Your task to perform on an android device: How much does a 2 bedroom apartment rent for in New York? Image 0: 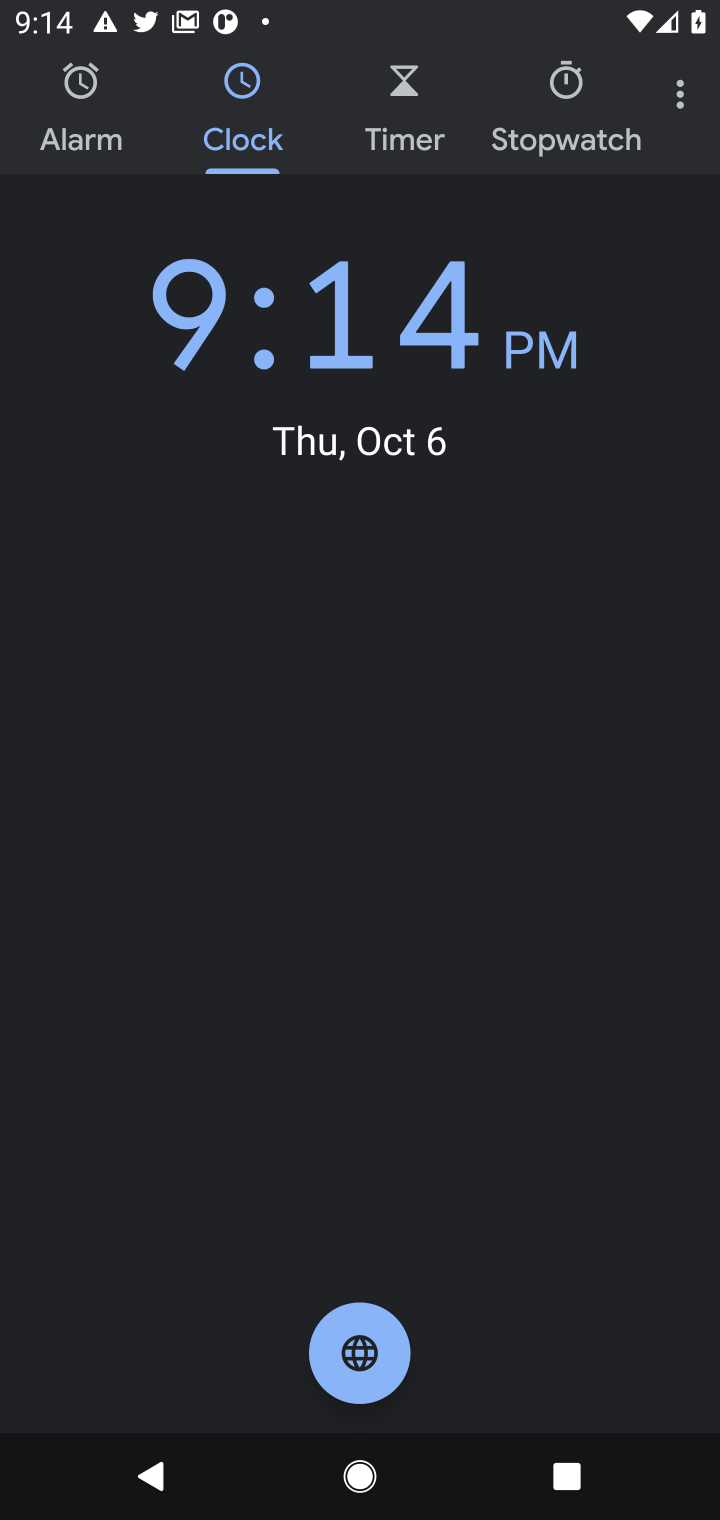
Step 0: press home button
Your task to perform on an android device: How much does a 2 bedroom apartment rent for in New York? Image 1: 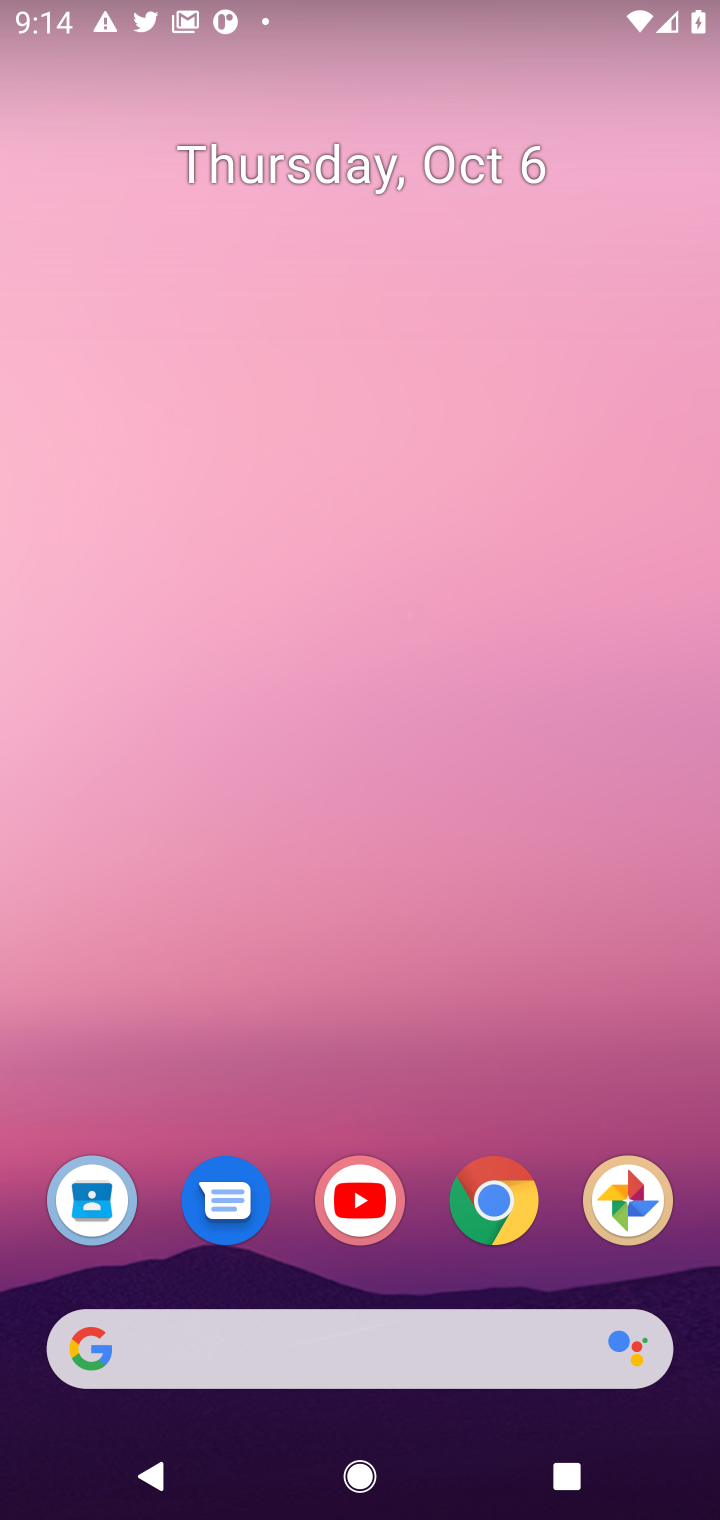
Step 1: click (517, 1203)
Your task to perform on an android device: How much does a 2 bedroom apartment rent for in New York? Image 2: 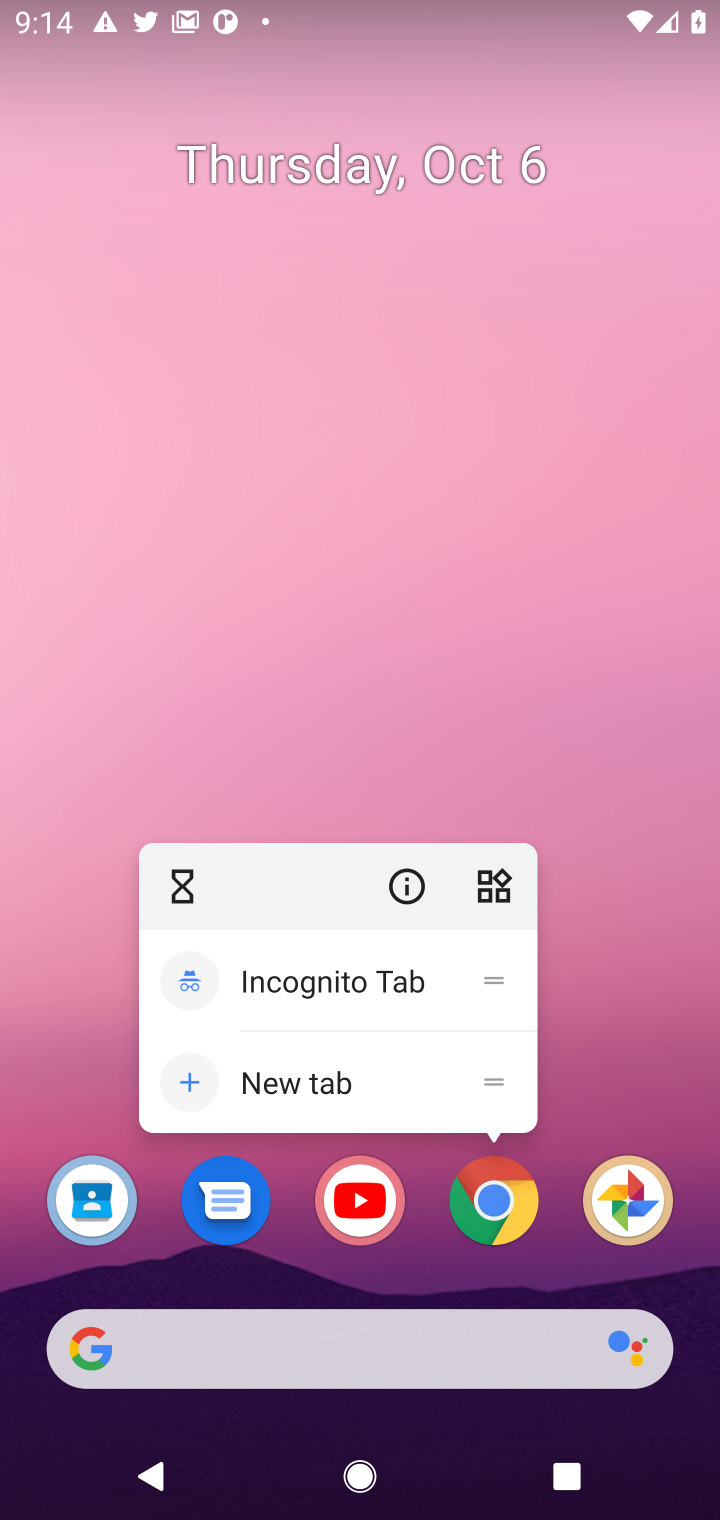
Step 2: press home button
Your task to perform on an android device: How much does a 2 bedroom apartment rent for in New York? Image 3: 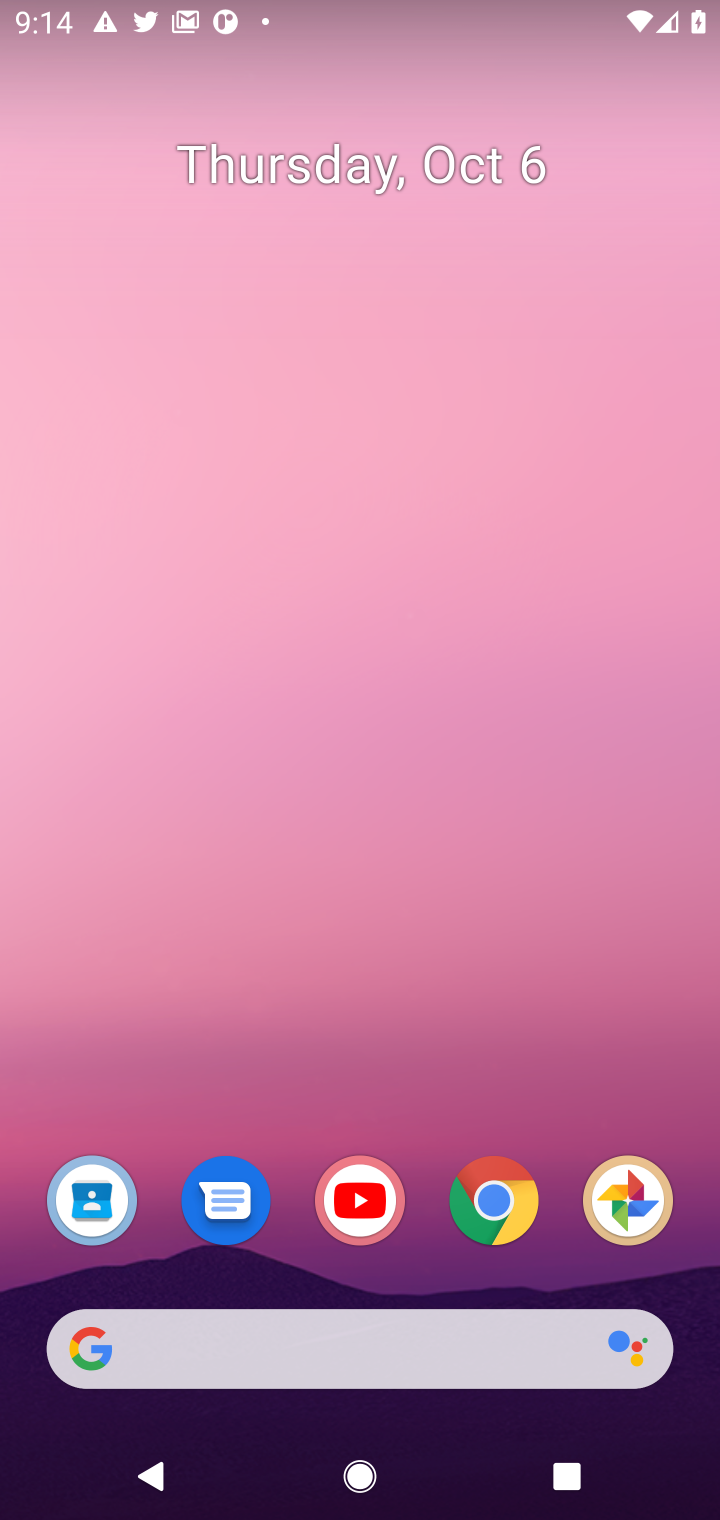
Step 3: press back button
Your task to perform on an android device: How much does a 2 bedroom apartment rent for in New York? Image 4: 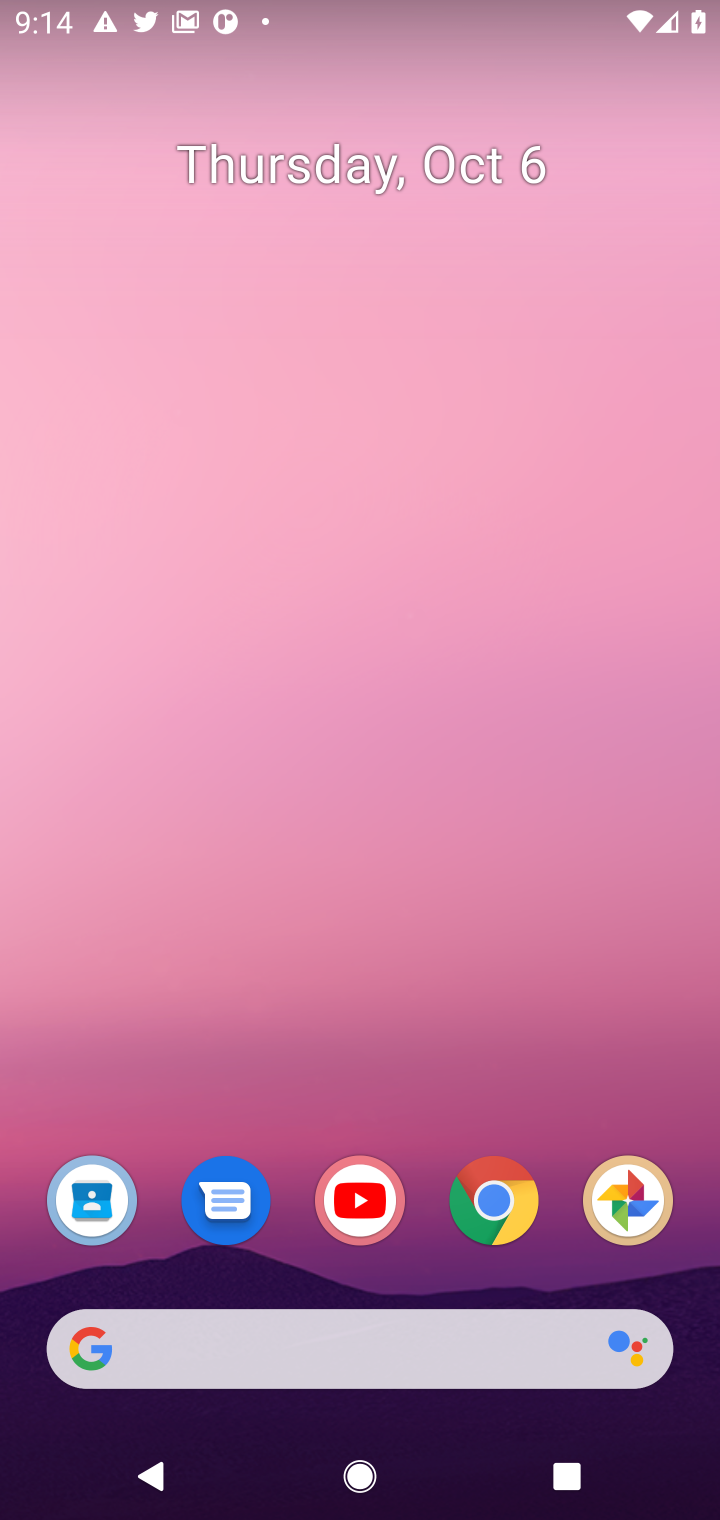
Step 4: press home button
Your task to perform on an android device: How much does a 2 bedroom apartment rent for in New York? Image 5: 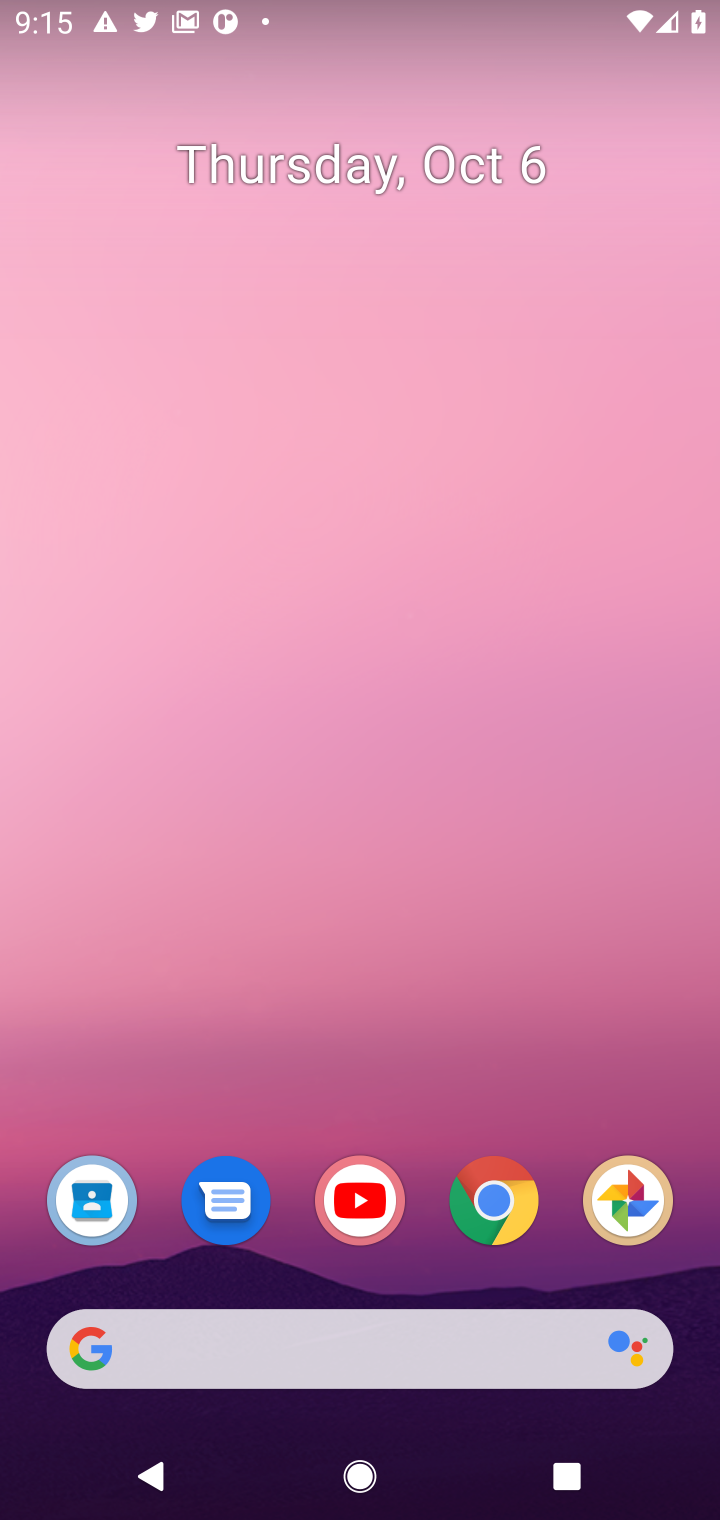
Step 5: click (491, 1200)
Your task to perform on an android device: How much does a 2 bedroom apartment rent for in New York? Image 6: 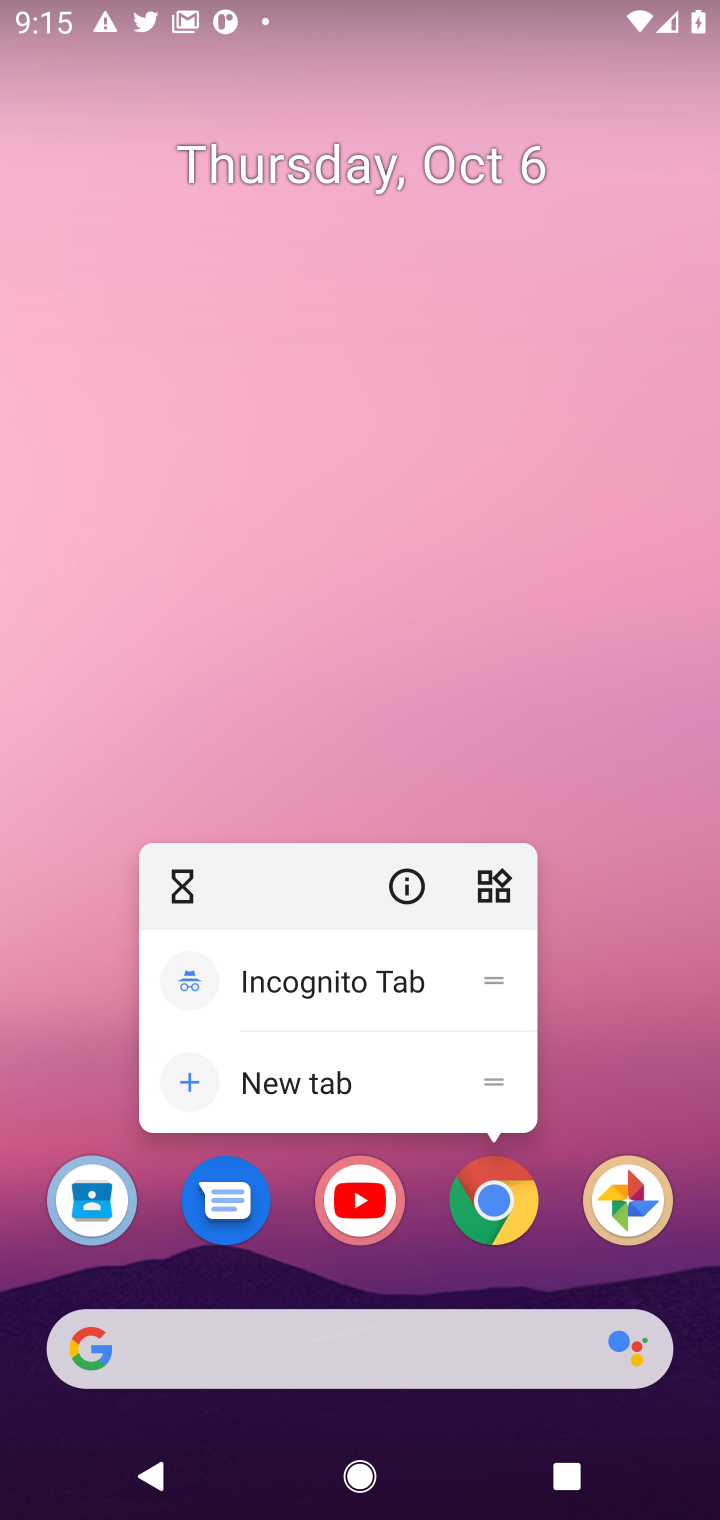
Step 6: press back button
Your task to perform on an android device: How much does a 2 bedroom apartment rent for in New York? Image 7: 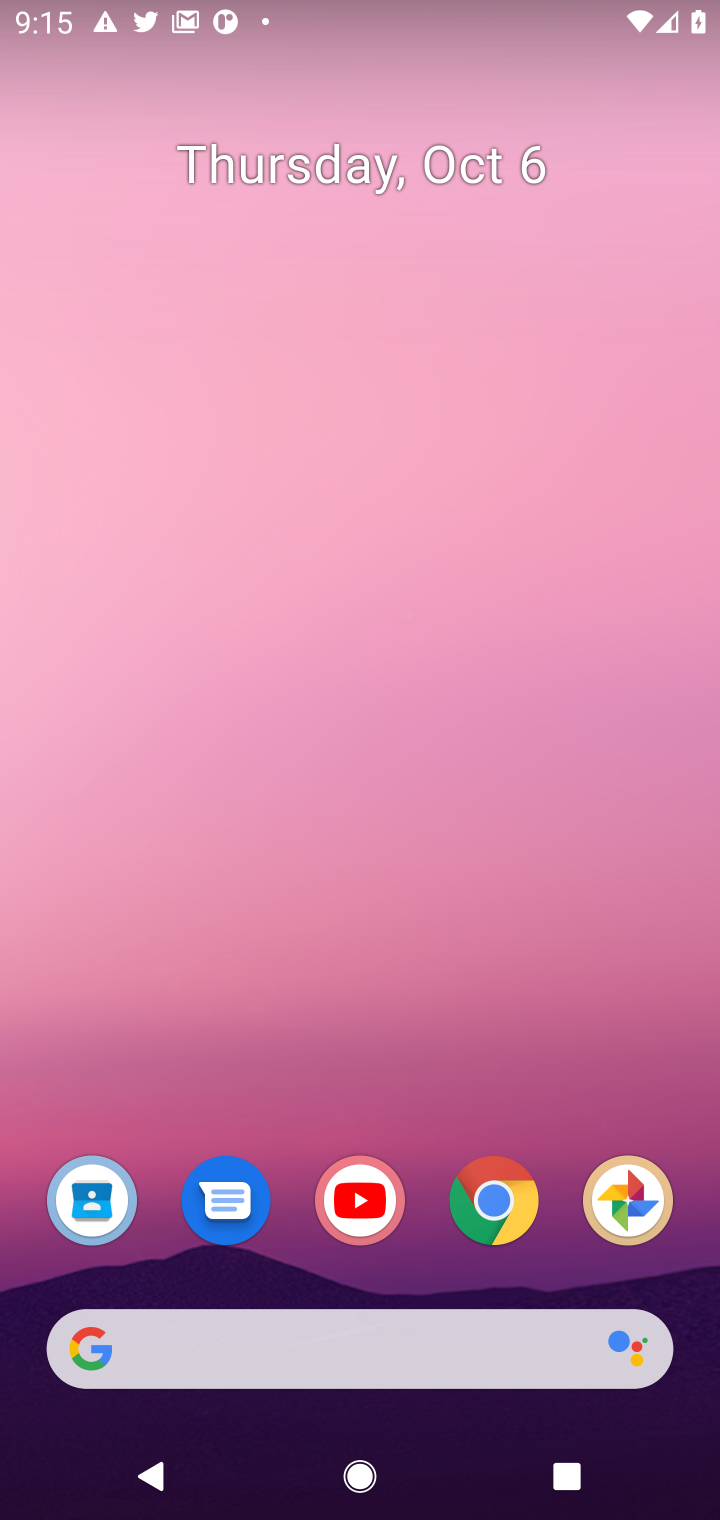
Step 7: press home button
Your task to perform on an android device: How much does a 2 bedroom apartment rent for in New York? Image 8: 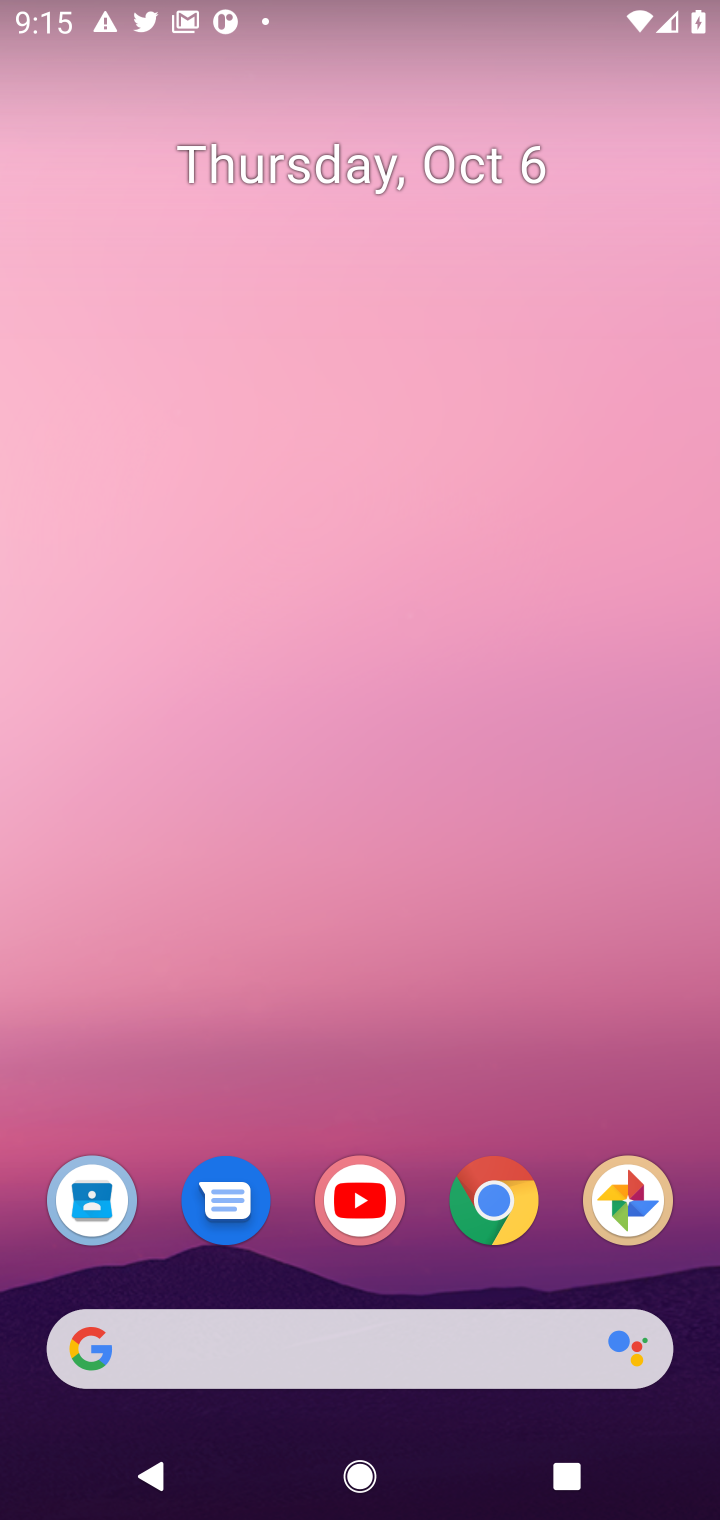
Step 8: click (504, 1201)
Your task to perform on an android device: How much does a 2 bedroom apartment rent for in New York? Image 9: 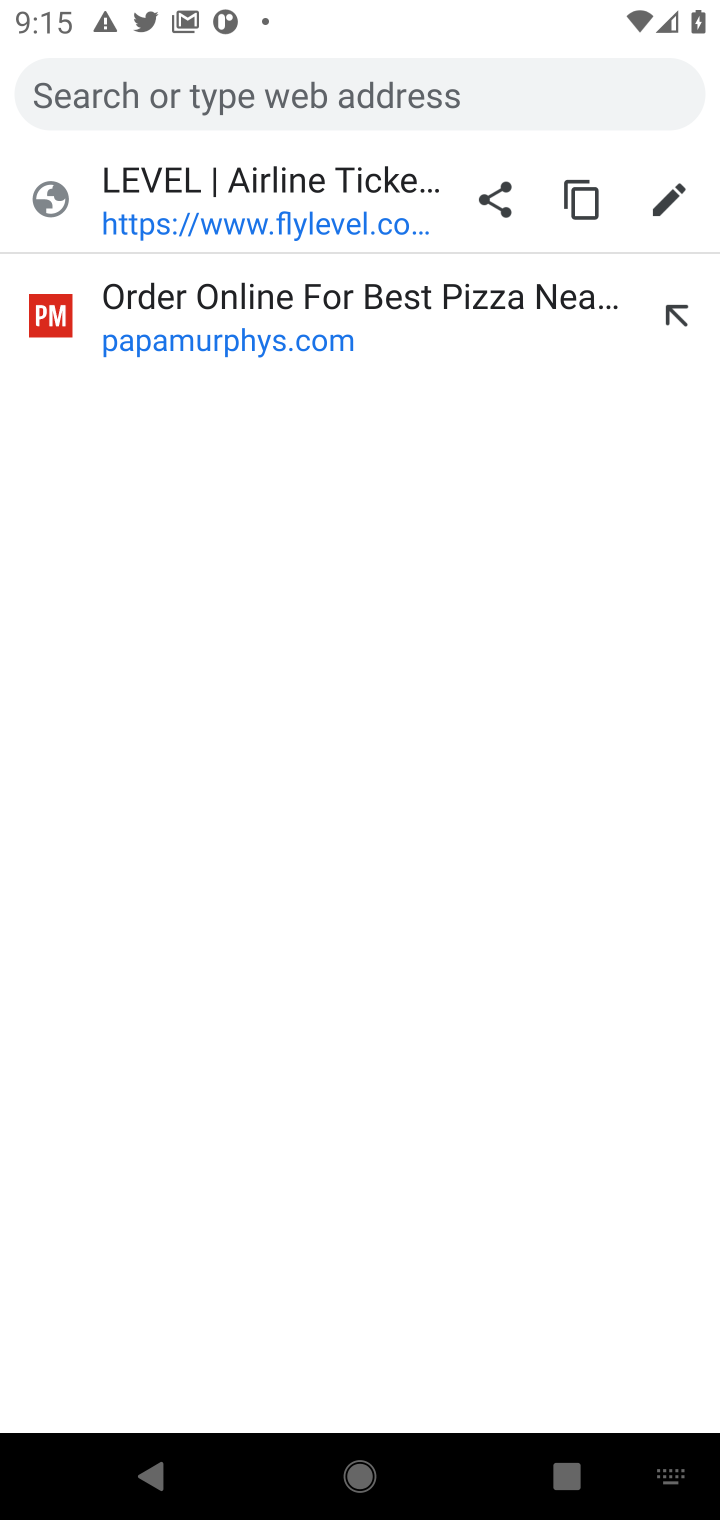
Step 9: type "2 bedroom apartment rent for in new york"
Your task to perform on an android device: How much does a 2 bedroom apartment rent for in New York? Image 10: 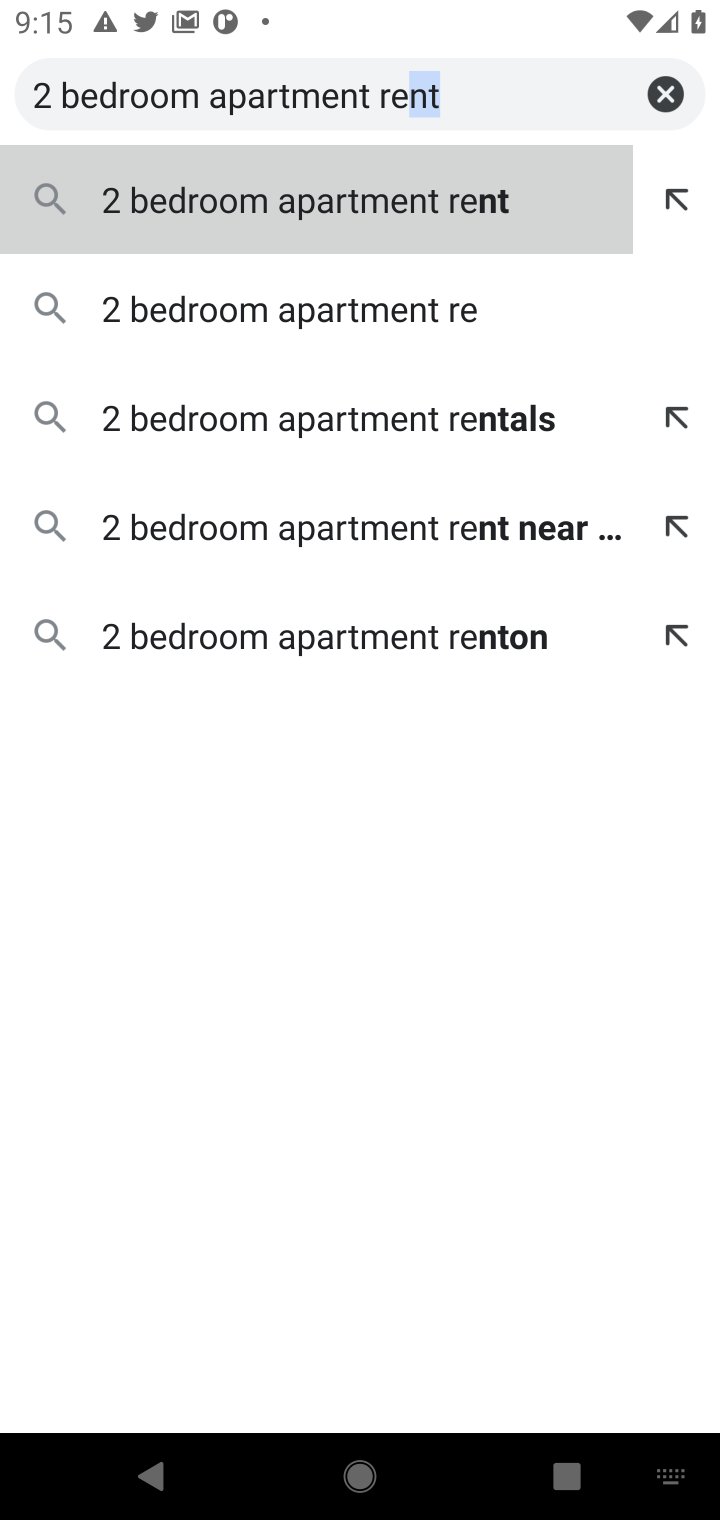
Step 10: click (424, 203)
Your task to perform on an android device: How much does a 2 bedroom apartment rent for in New York? Image 11: 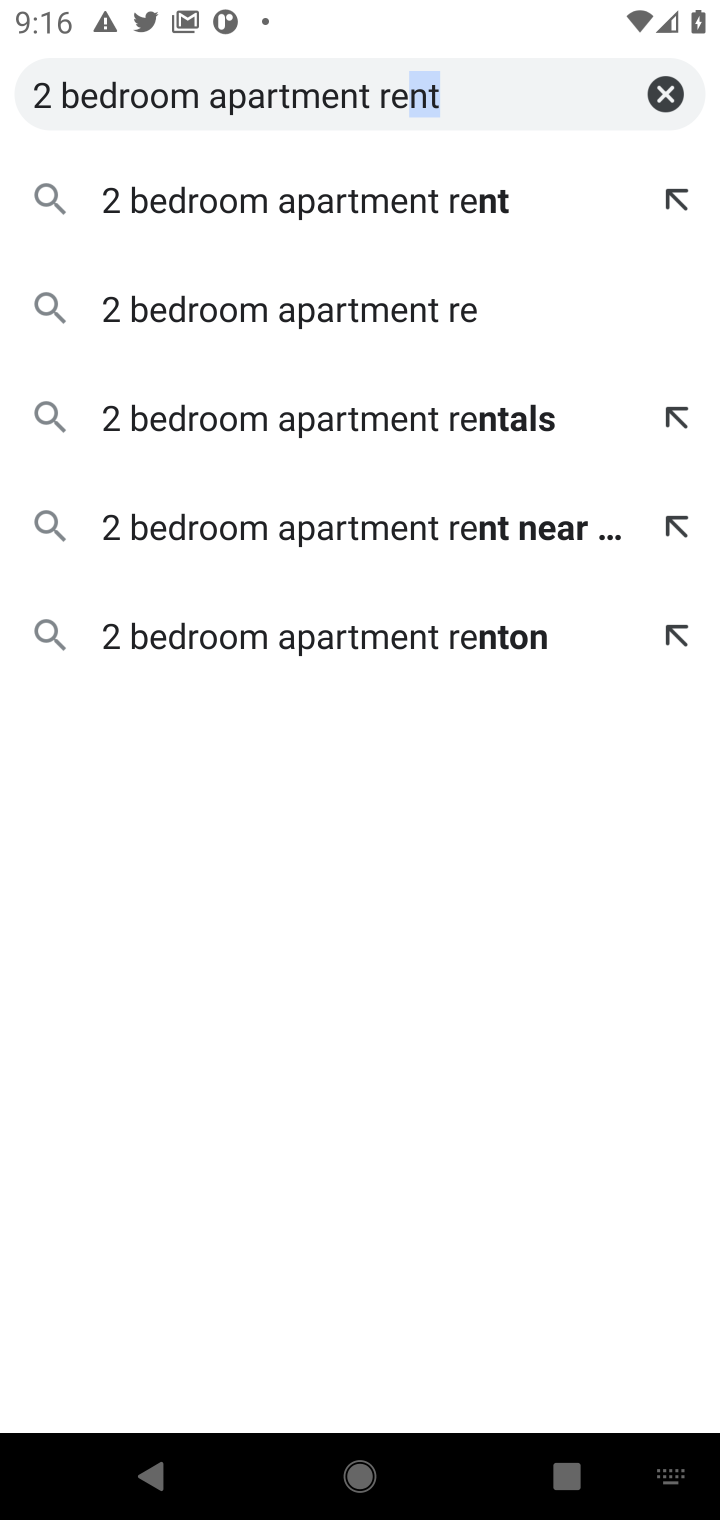
Step 11: click (488, 81)
Your task to perform on an android device: How much does a 2 bedroom apartment rent for in New York? Image 12: 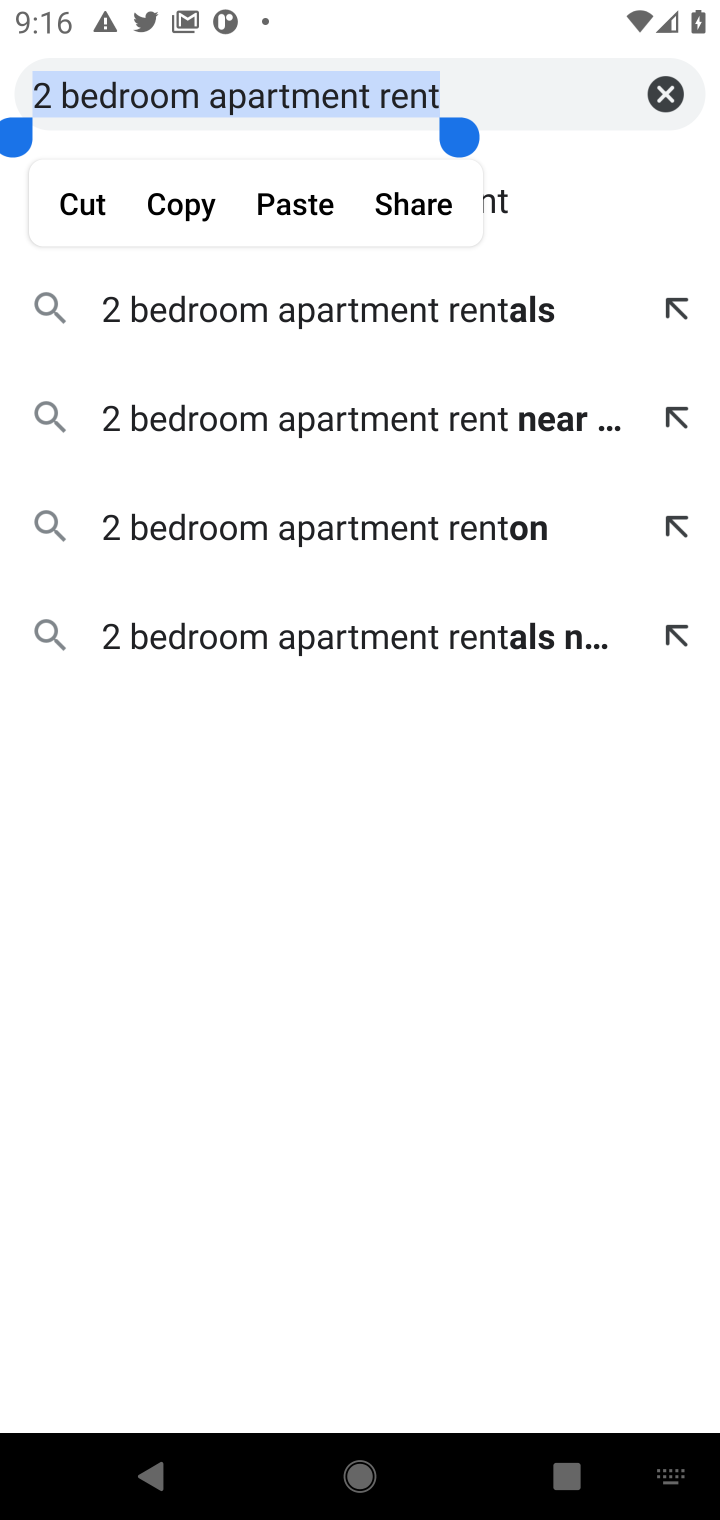
Step 12: type "how "
Your task to perform on an android device: How much does a 2 bedroom apartment rent for in New York? Image 13: 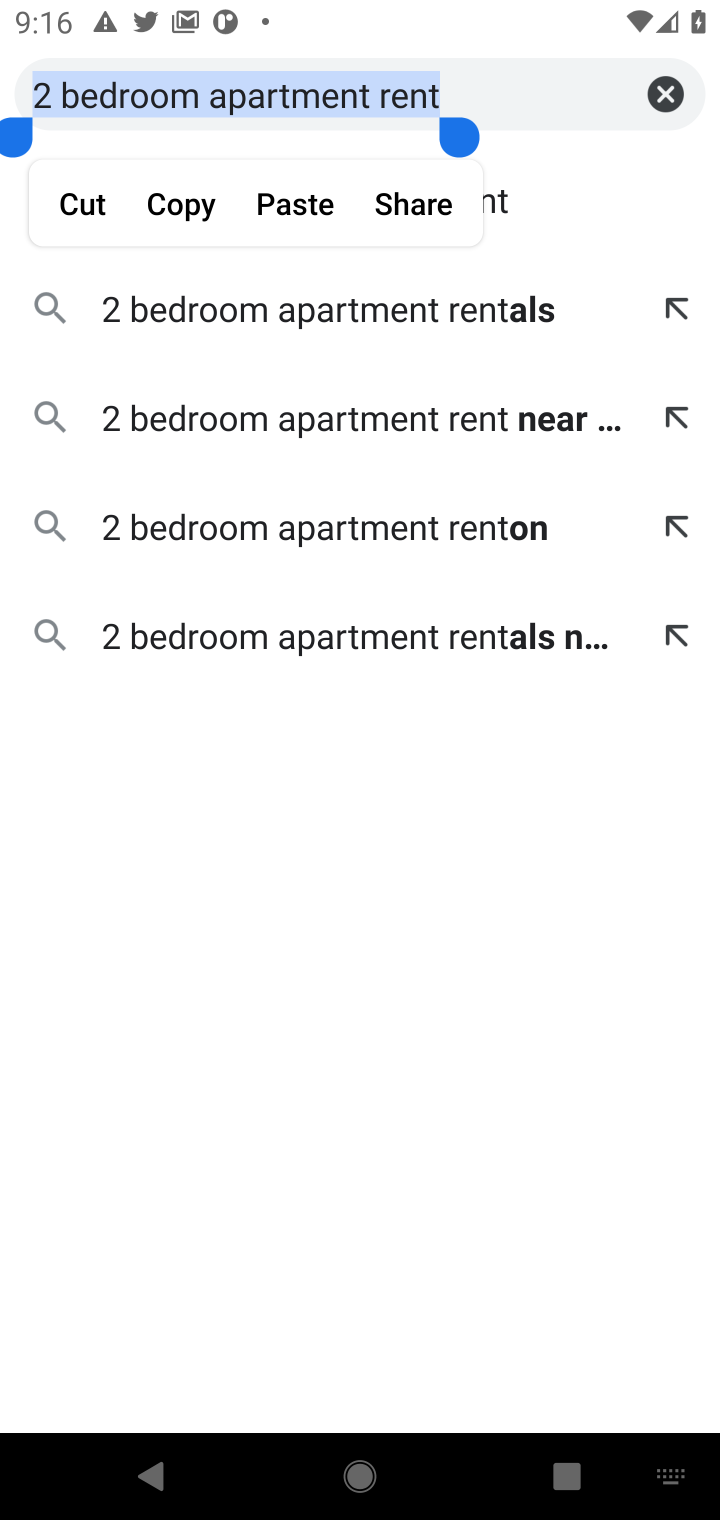
Step 13: click (667, 92)
Your task to perform on an android device: How much does a 2 bedroom apartment rent for in New York? Image 14: 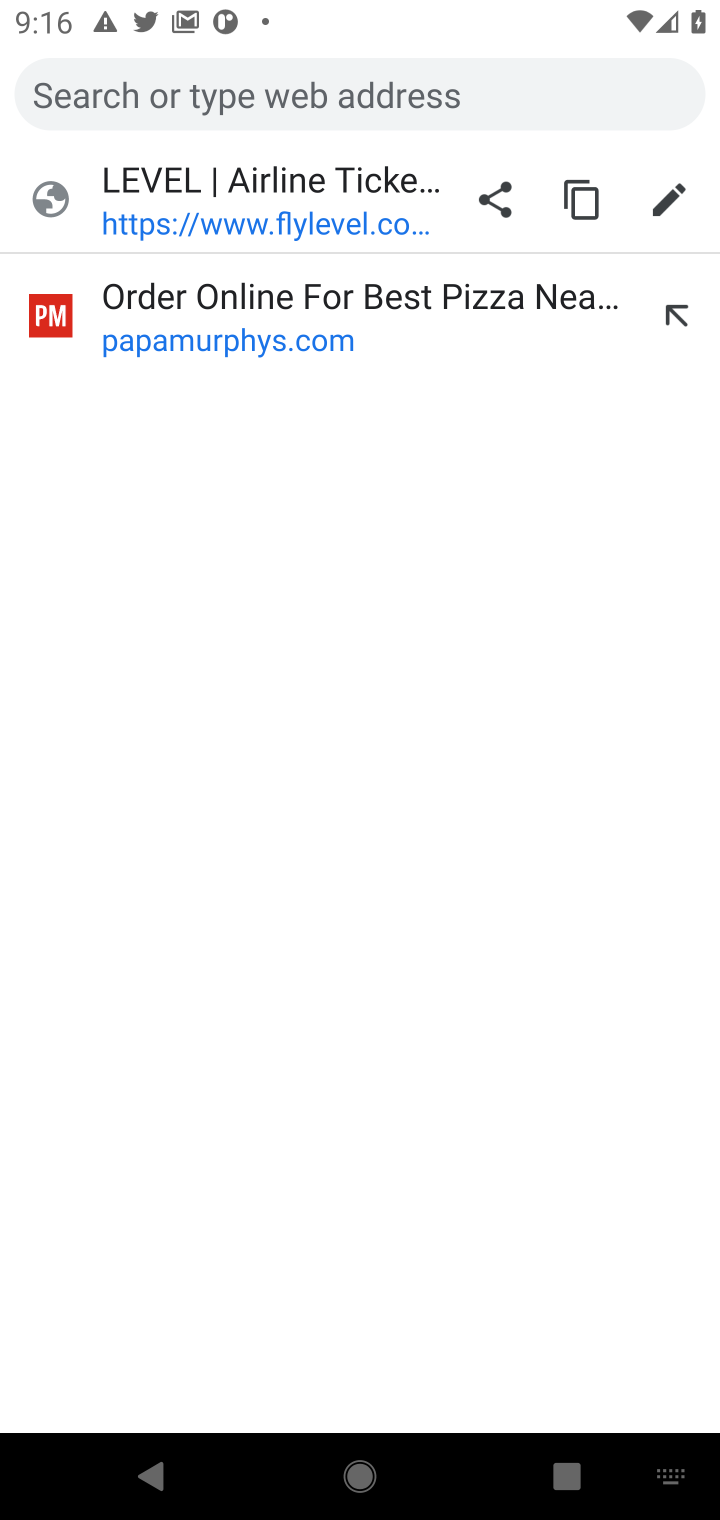
Step 14: type "how much does a 2 bedroom apartment rent in new york"
Your task to perform on an android device: How much does a 2 bedroom apartment rent for in New York? Image 15: 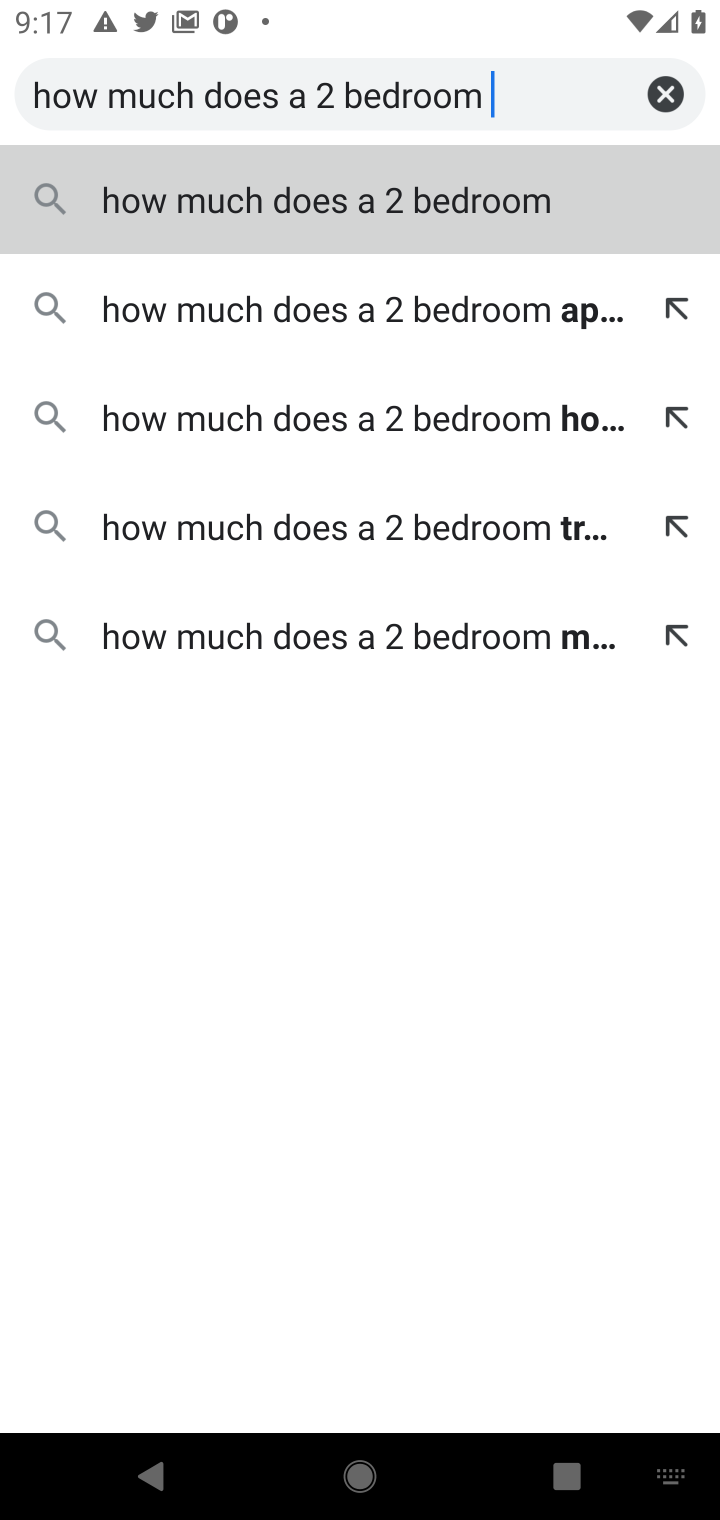
Step 15: click (248, 306)
Your task to perform on an android device: How much does a 2 bedroom apartment rent for in New York? Image 16: 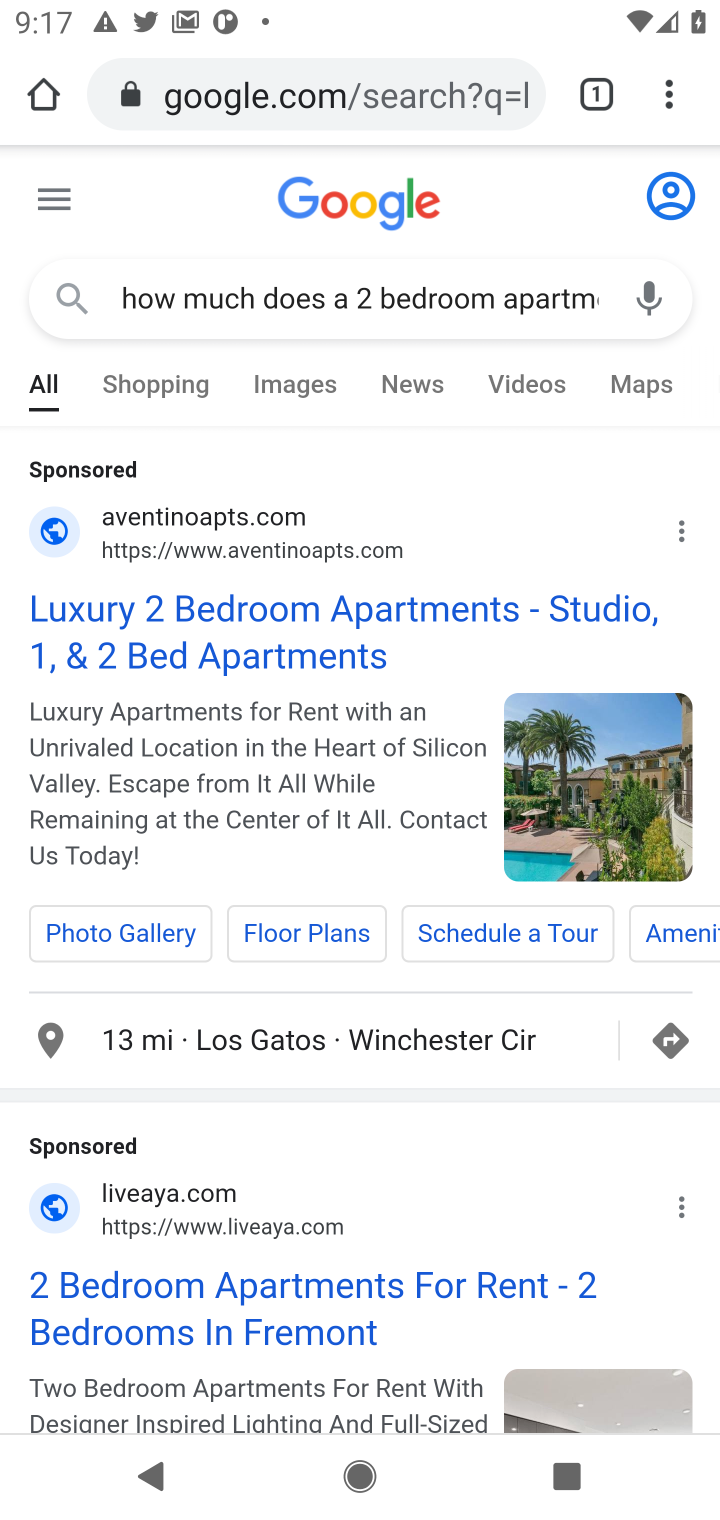
Step 16: drag from (596, 1066) to (639, 505)
Your task to perform on an android device: How much does a 2 bedroom apartment rent for in New York? Image 17: 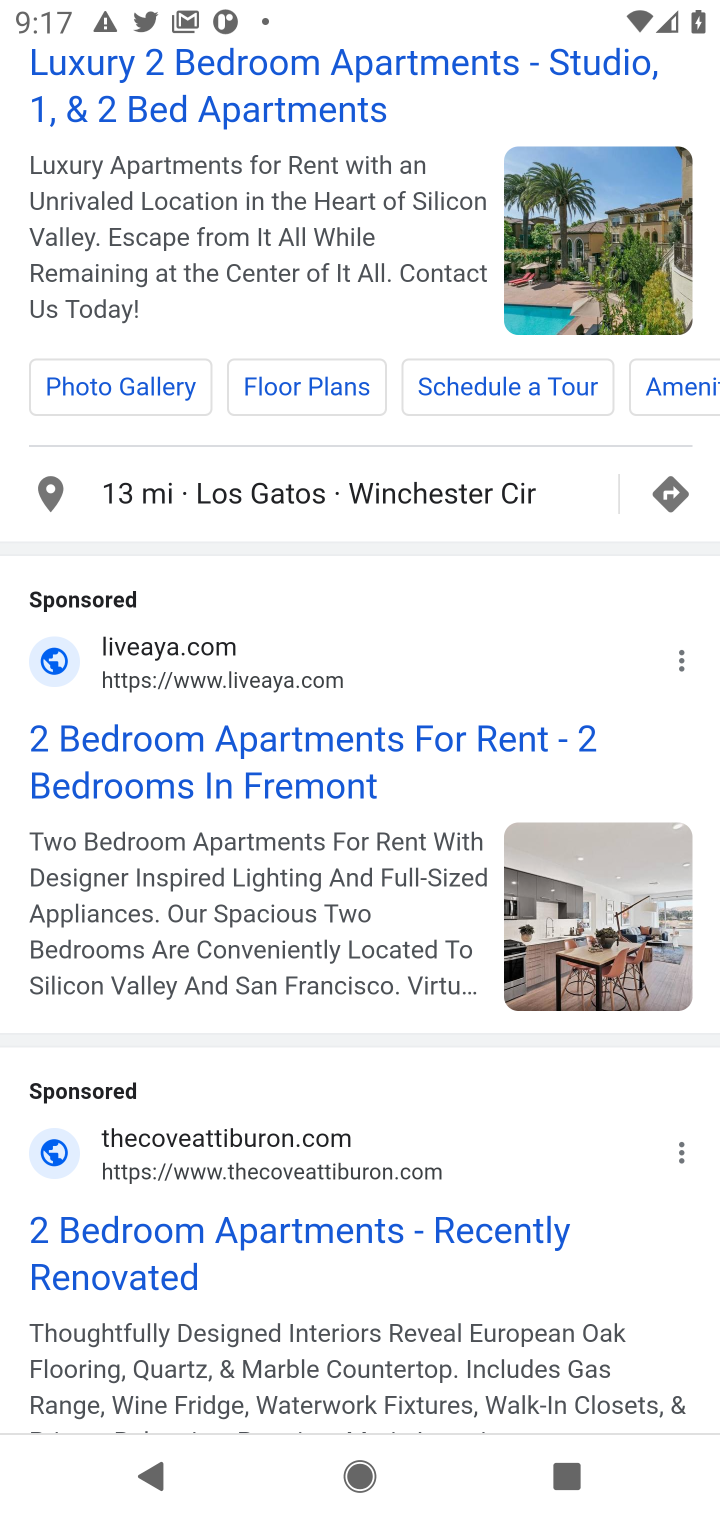
Step 17: click (300, 721)
Your task to perform on an android device: How much does a 2 bedroom apartment rent for in New York? Image 18: 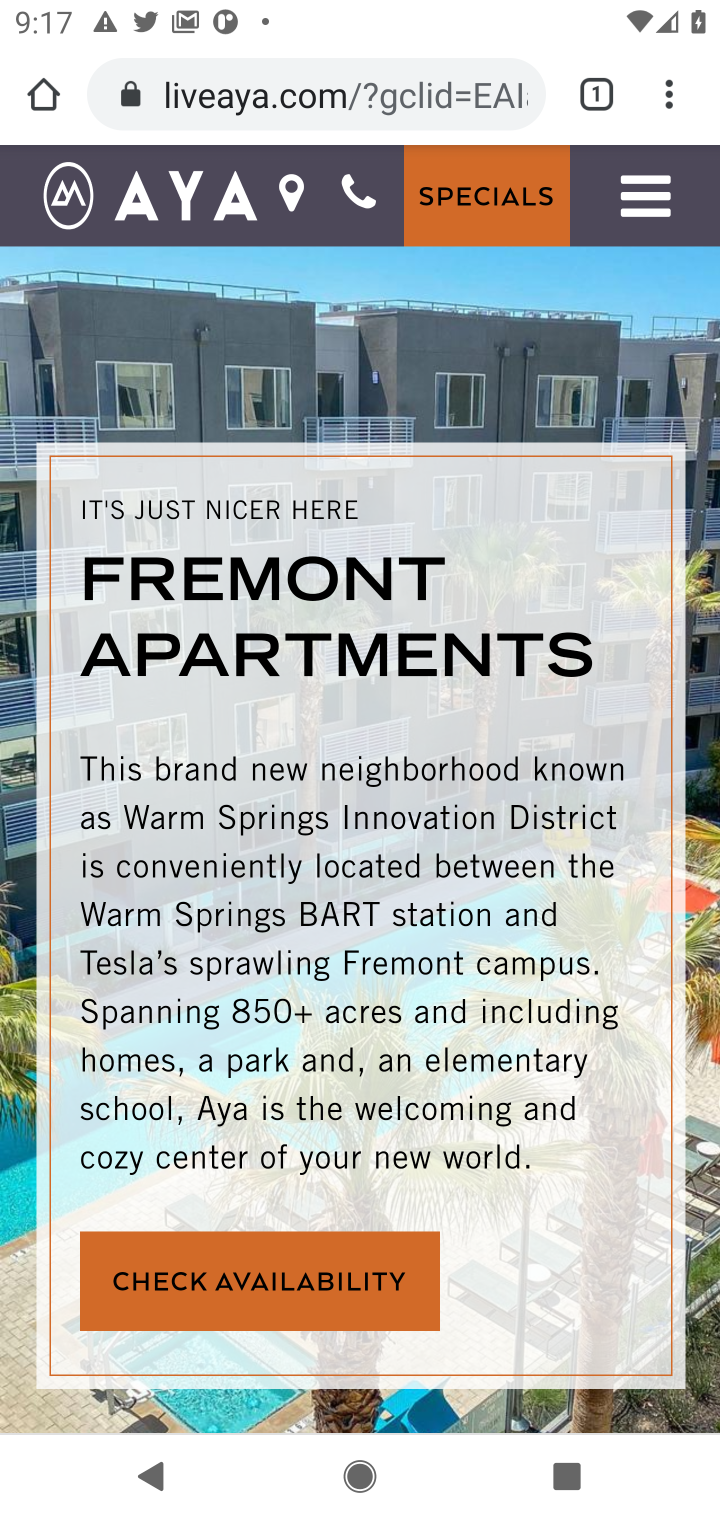
Step 18: click (374, 1283)
Your task to perform on an android device: How much does a 2 bedroom apartment rent for in New York? Image 19: 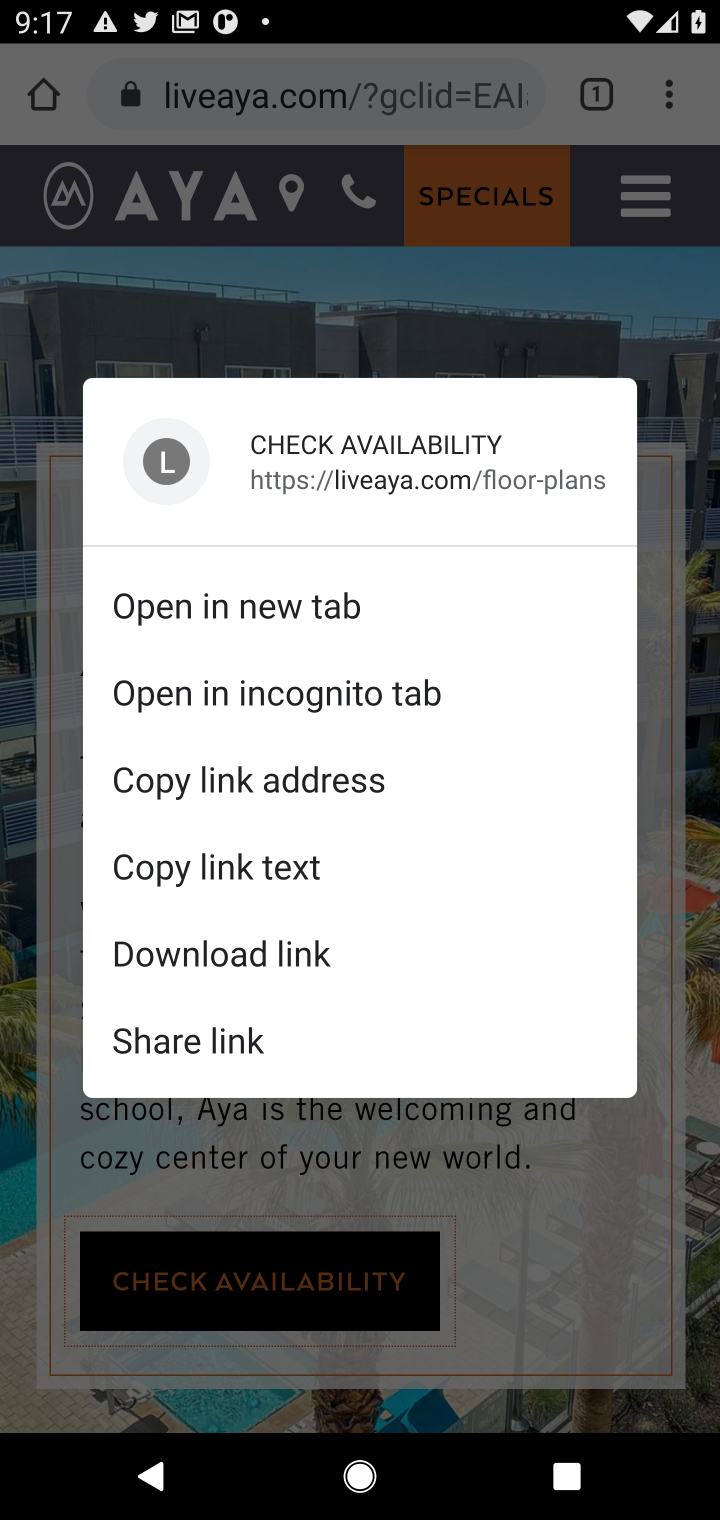
Step 19: click (183, 1294)
Your task to perform on an android device: How much does a 2 bedroom apartment rent for in New York? Image 20: 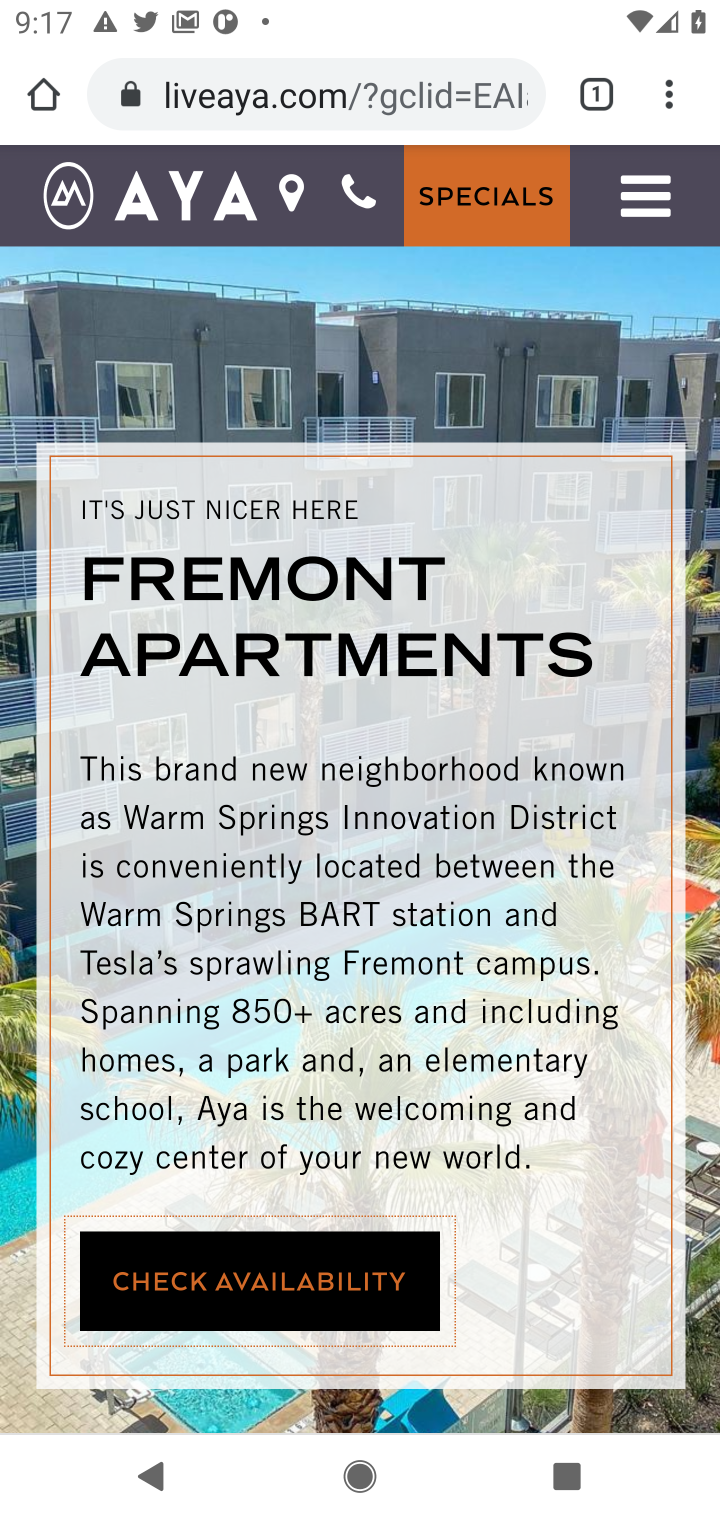
Step 20: click (449, 433)
Your task to perform on an android device: How much does a 2 bedroom apartment rent for in New York? Image 21: 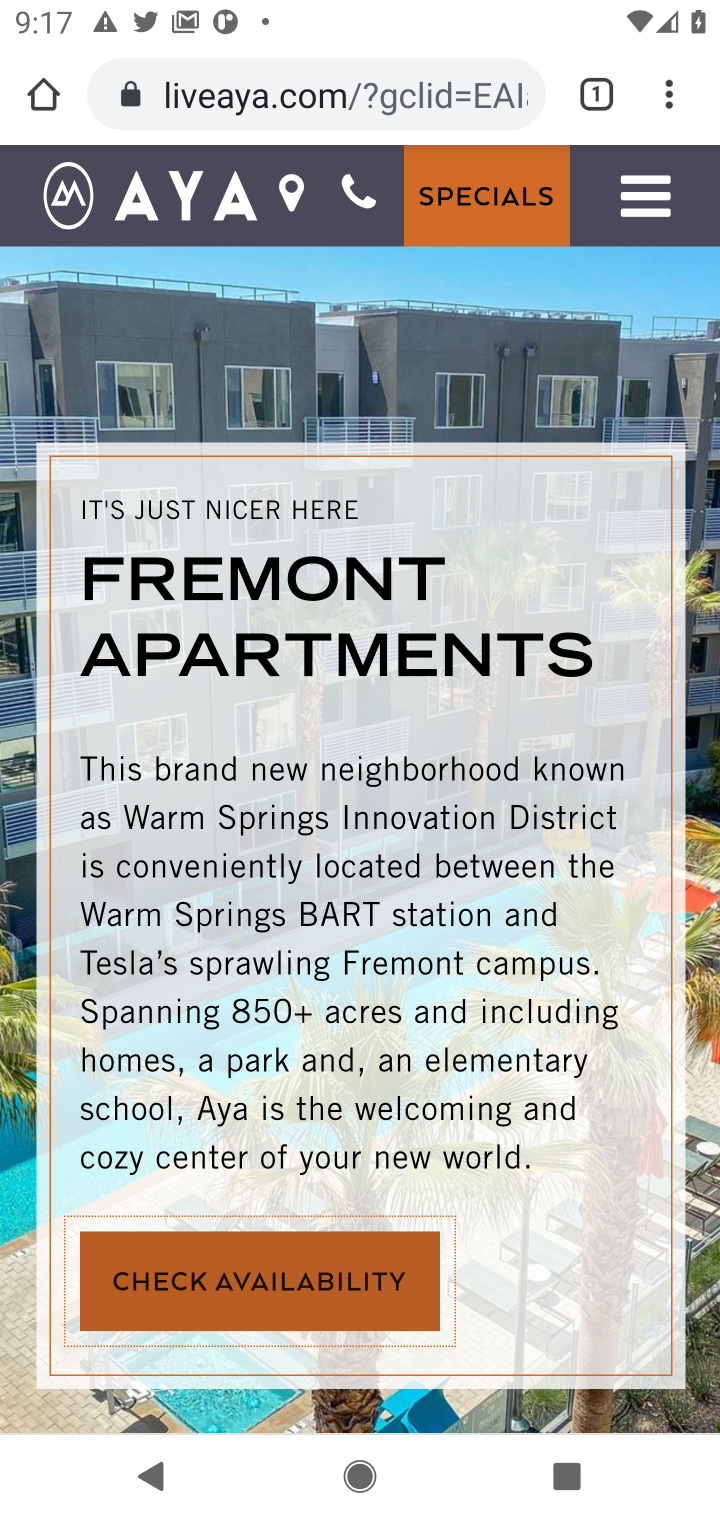
Step 21: drag from (256, 921) to (217, 1277)
Your task to perform on an android device: How much does a 2 bedroom apartment rent for in New York? Image 22: 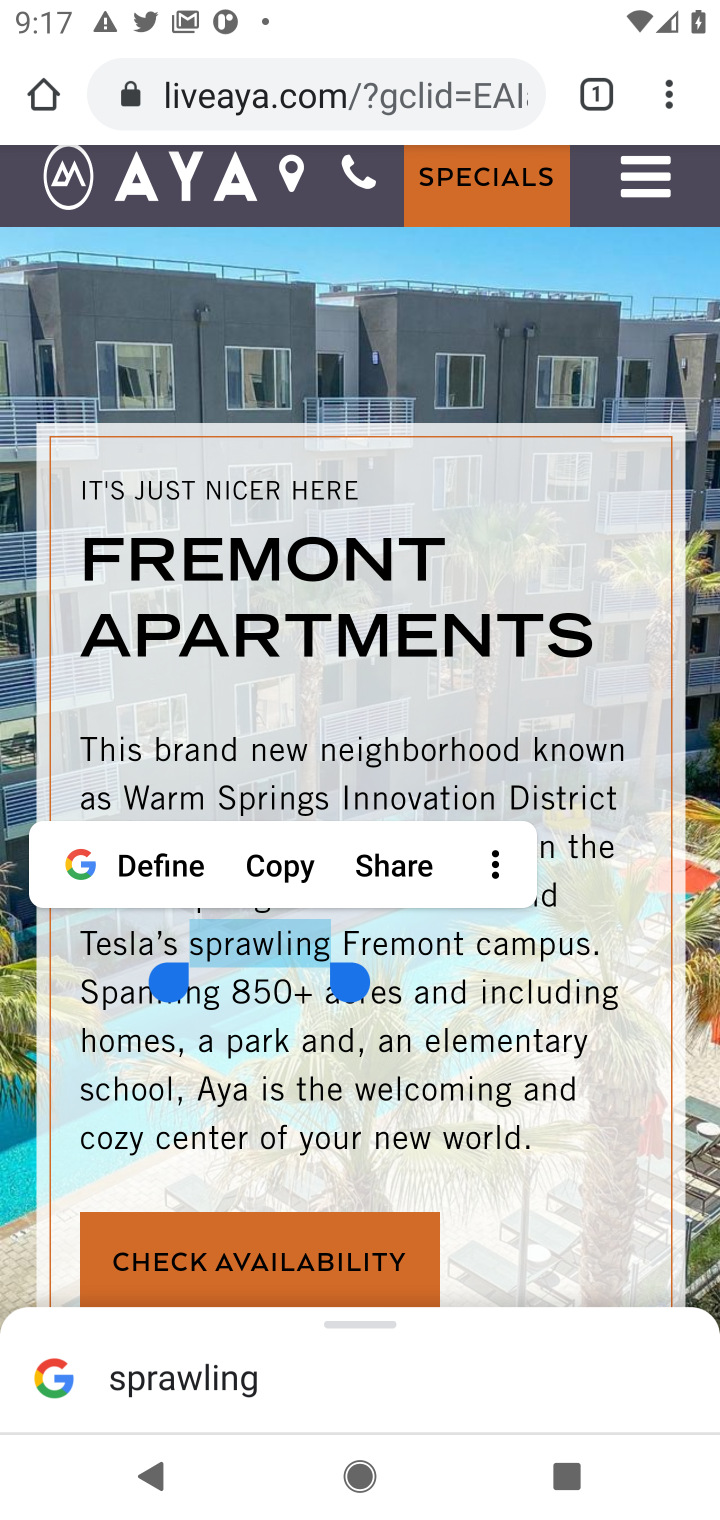
Step 22: click (357, 1267)
Your task to perform on an android device: How much does a 2 bedroom apartment rent for in New York? Image 23: 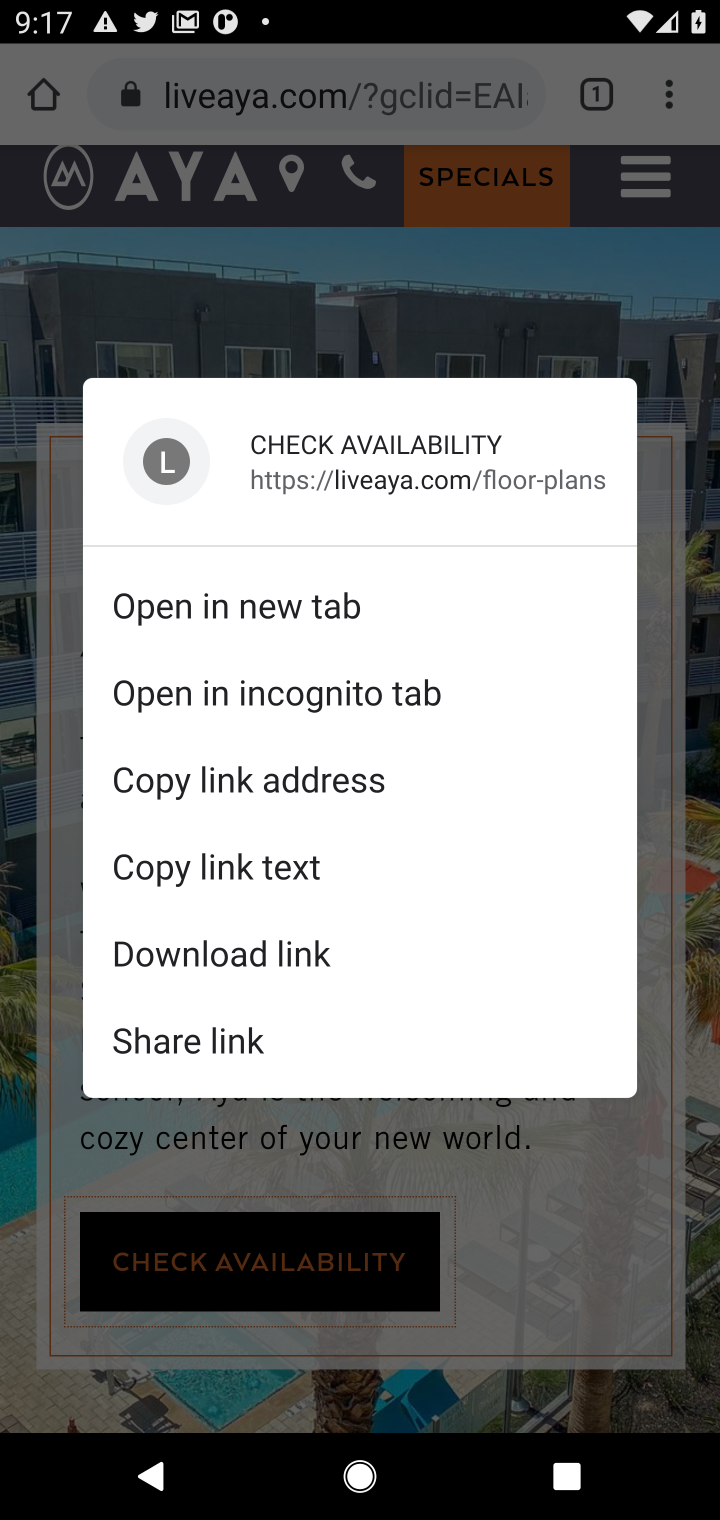
Step 23: click (278, 598)
Your task to perform on an android device: How much does a 2 bedroom apartment rent for in New York? Image 24: 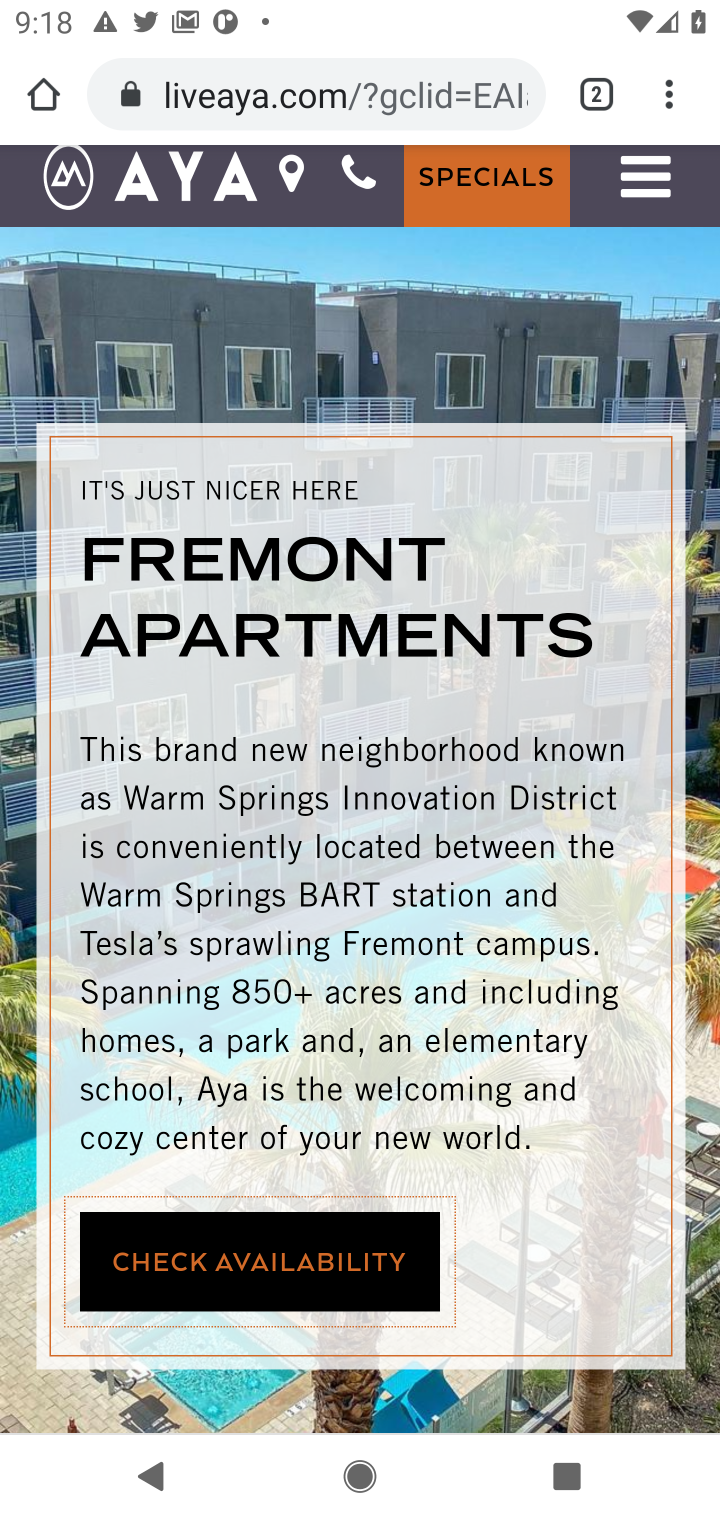
Step 24: drag from (568, 1143) to (614, 887)
Your task to perform on an android device: How much does a 2 bedroom apartment rent for in New York? Image 25: 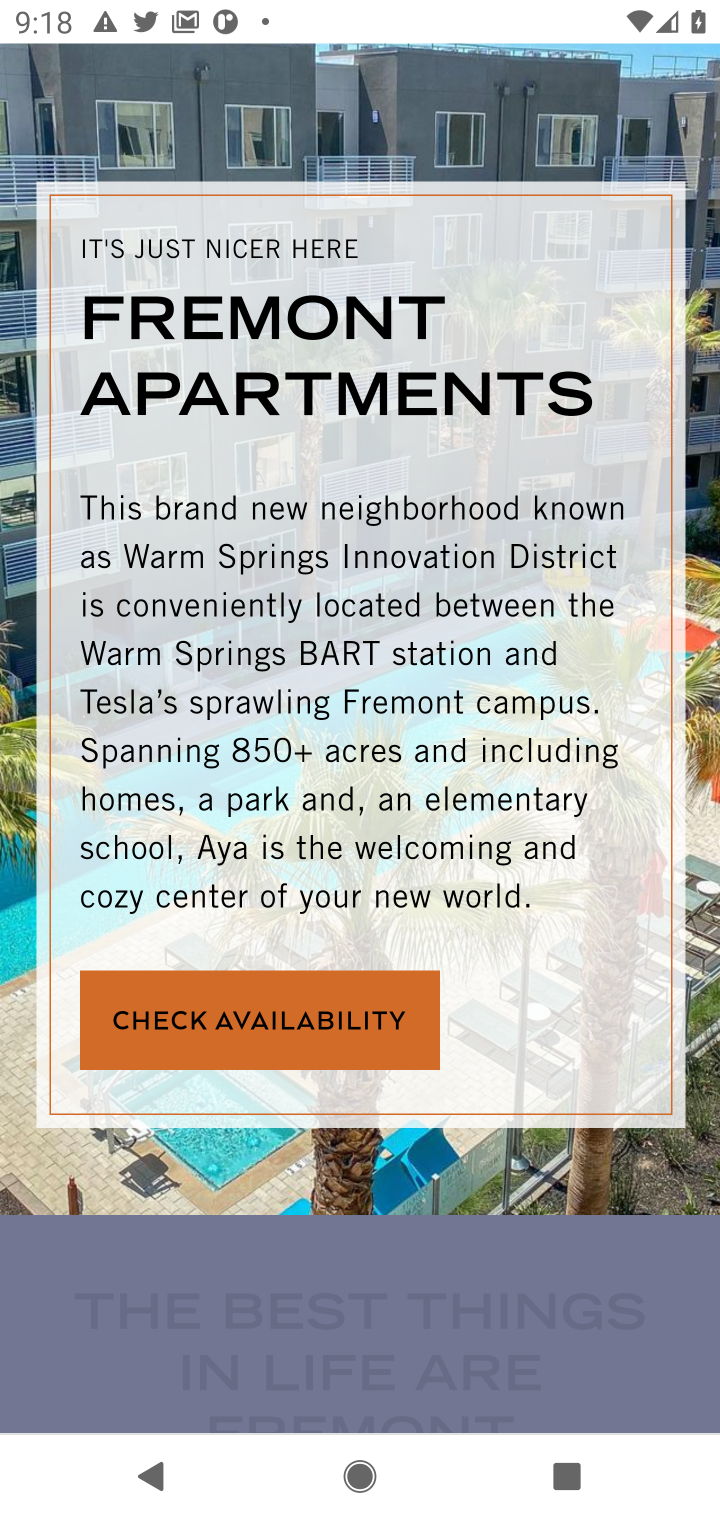
Step 25: drag from (708, 1182) to (708, 617)
Your task to perform on an android device: How much does a 2 bedroom apartment rent for in New York? Image 26: 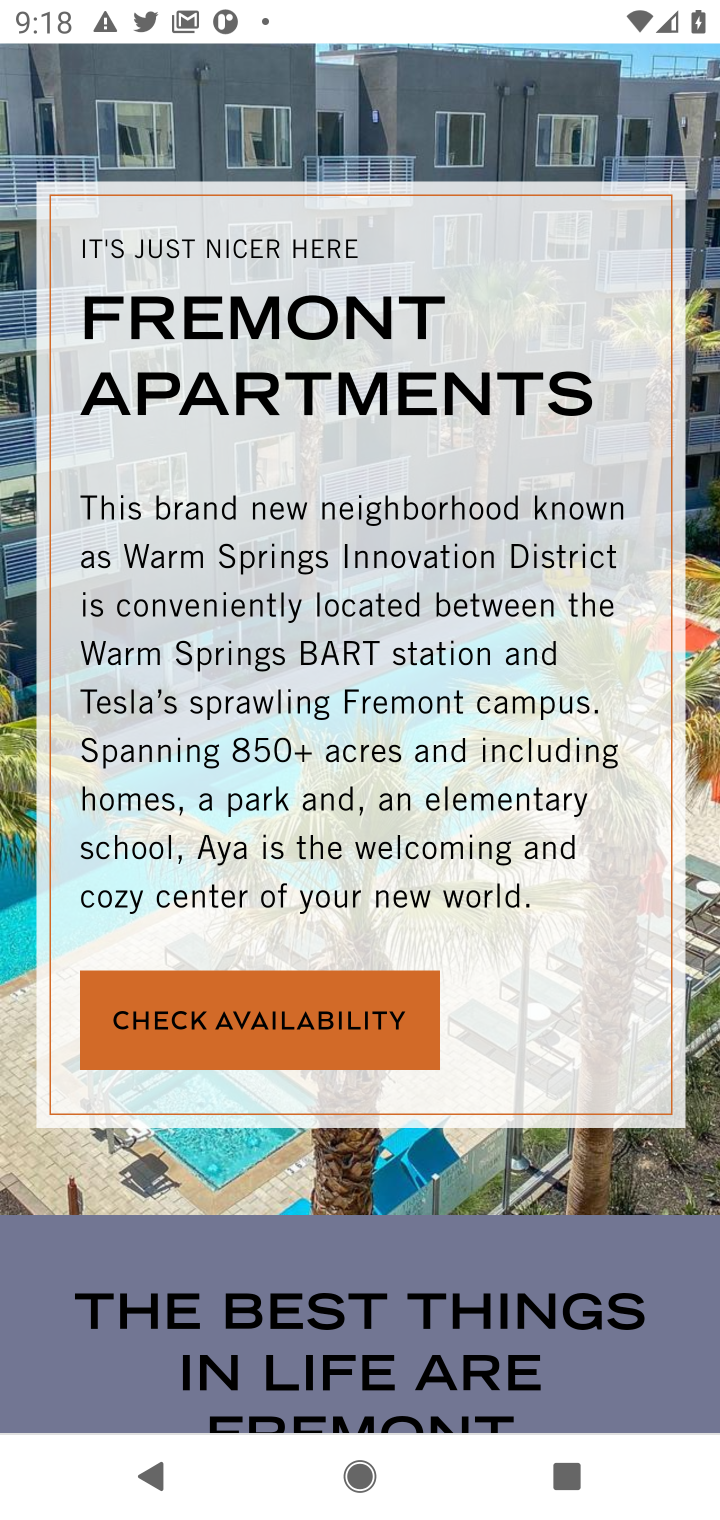
Step 26: drag from (524, 1010) to (576, 702)
Your task to perform on an android device: How much does a 2 bedroom apartment rent for in New York? Image 27: 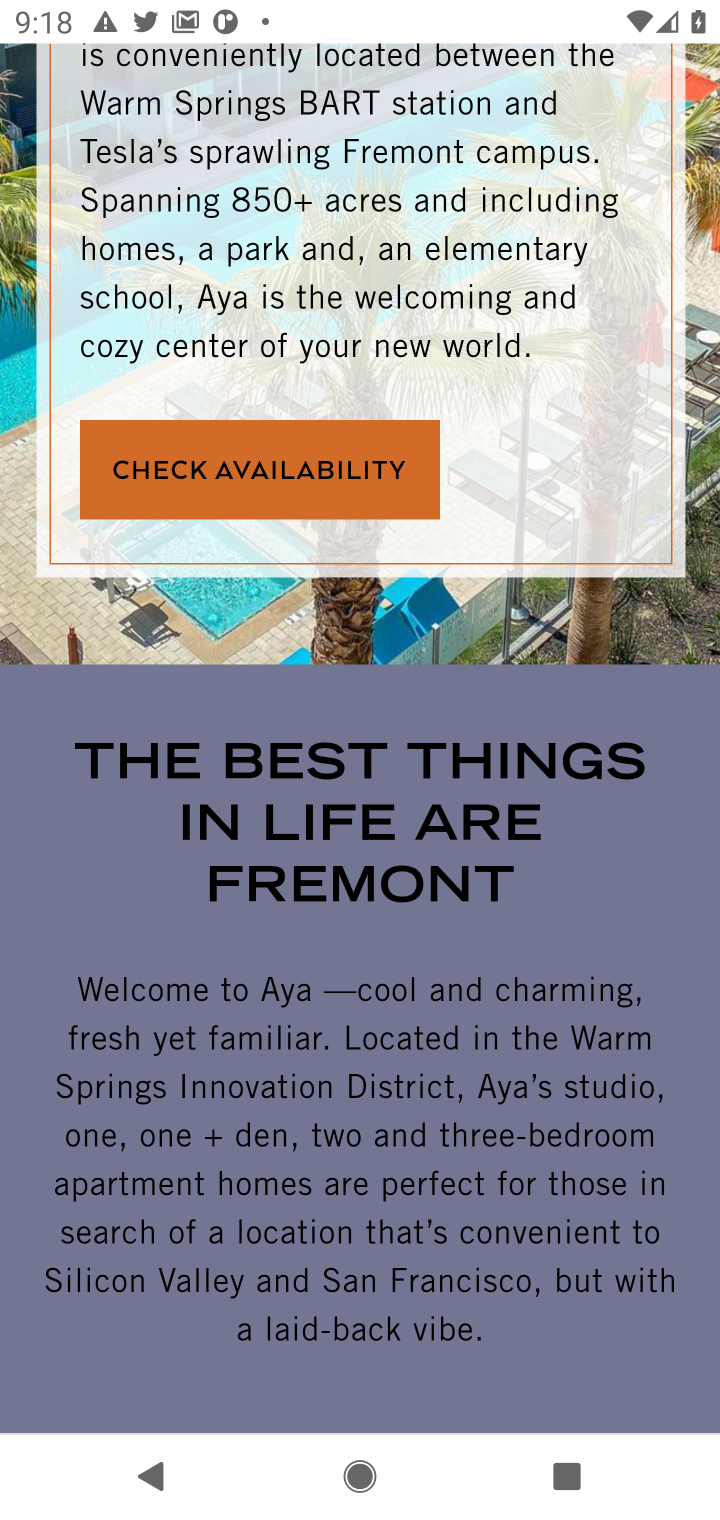
Step 27: drag from (670, 792) to (696, 479)
Your task to perform on an android device: How much does a 2 bedroom apartment rent for in New York? Image 28: 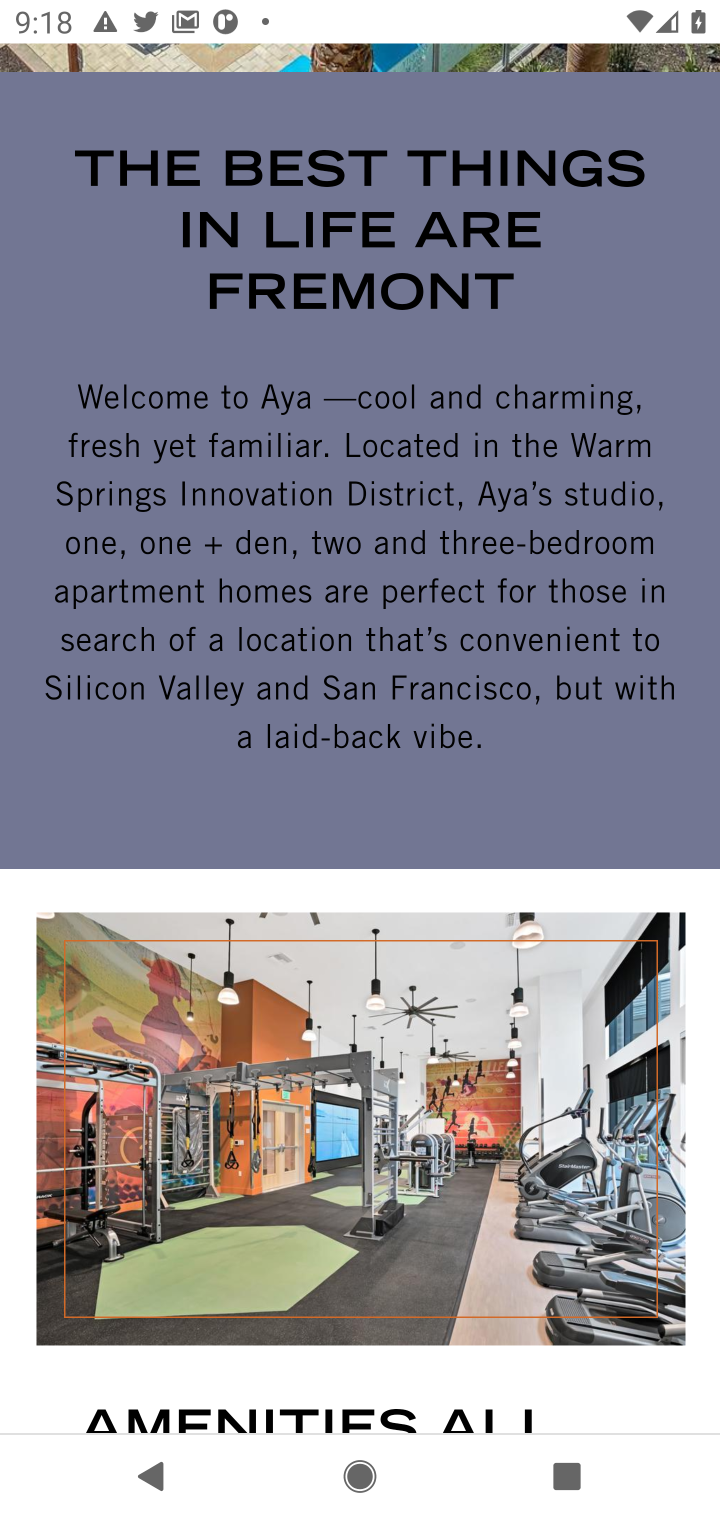
Step 28: drag from (486, 981) to (563, 769)
Your task to perform on an android device: How much does a 2 bedroom apartment rent for in New York? Image 29: 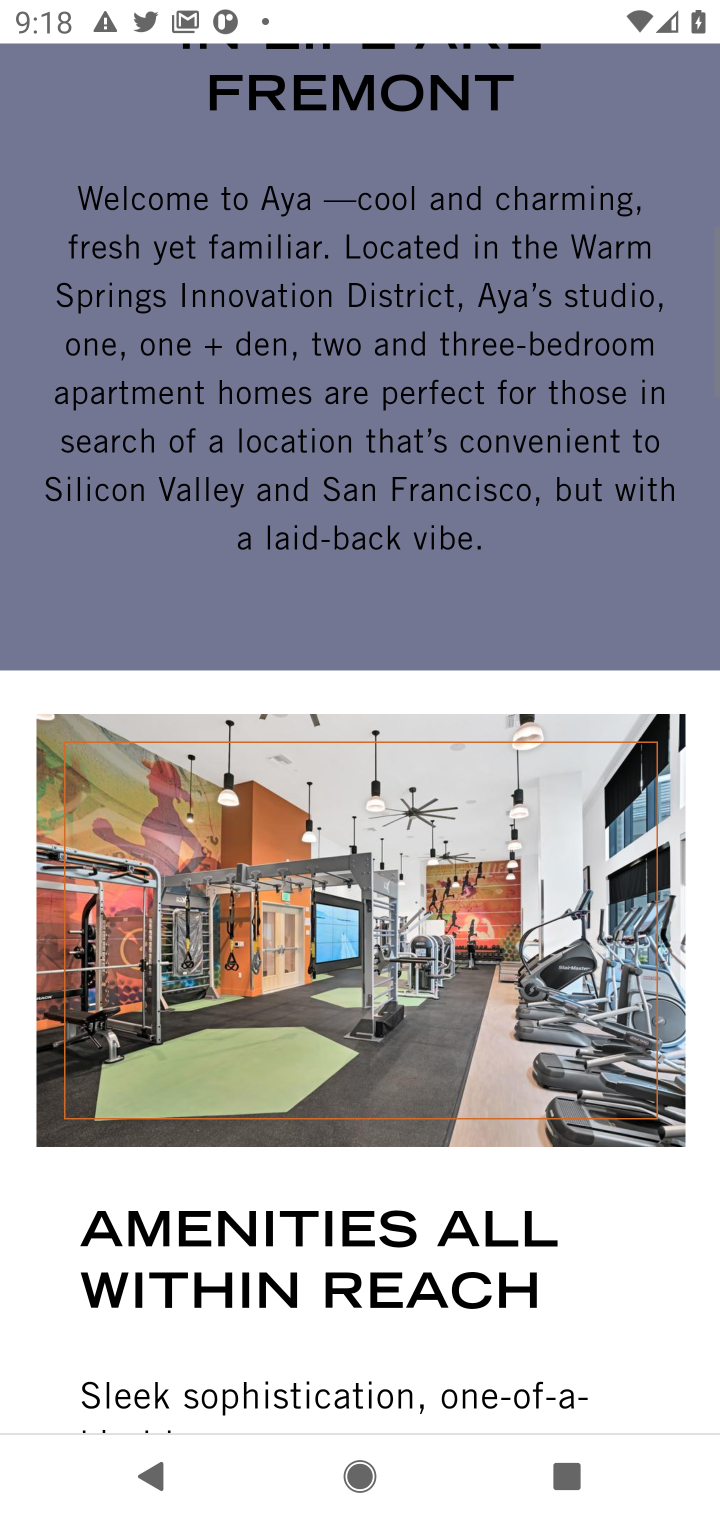
Step 29: drag from (492, 919) to (511, 674)
Your task to perform on an android device: How much does a 2 bedroom apartment rent for in New York? Image 30: 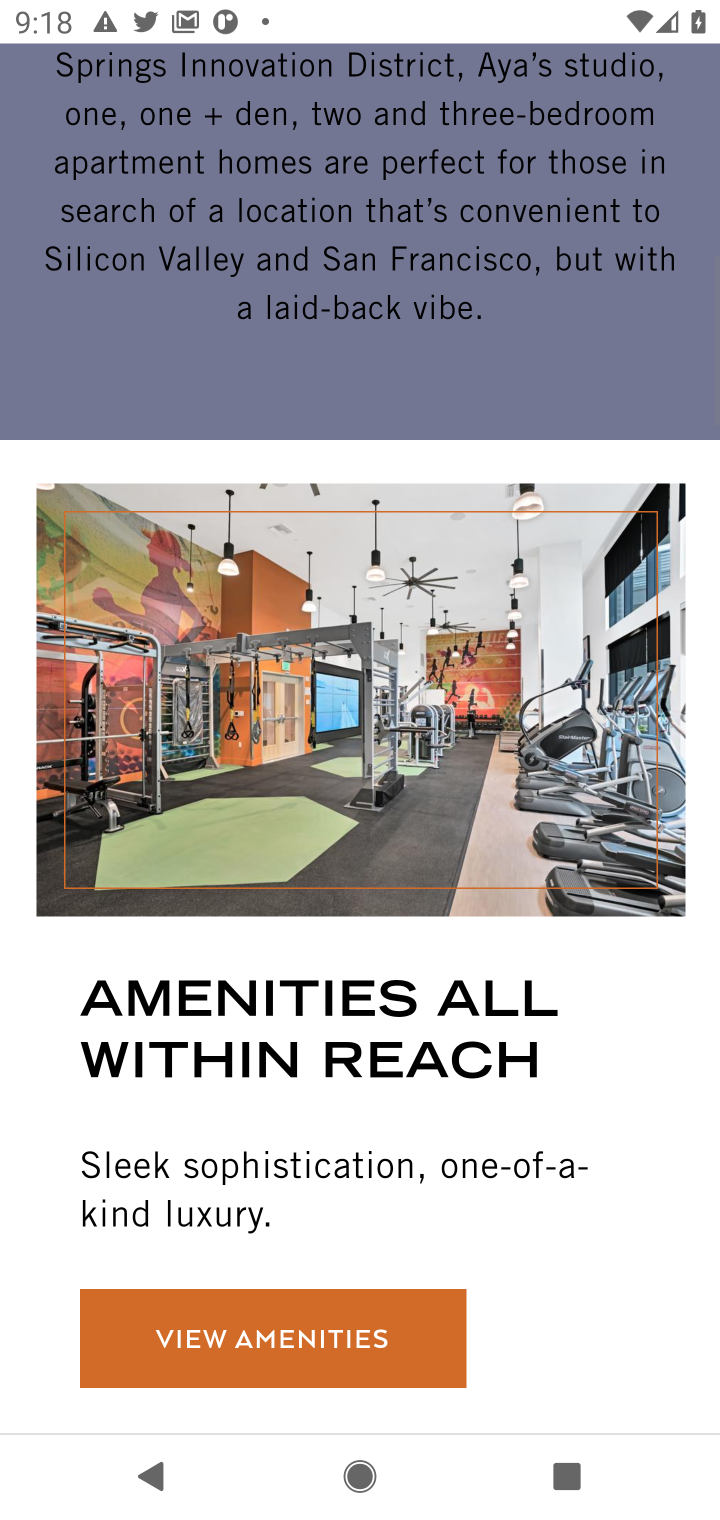
Step 30: drag from (423, 777) to (475, 411)
Your task to perform on an android device: How much does a 2 bedroom apartment rent for in New York? Image 31: 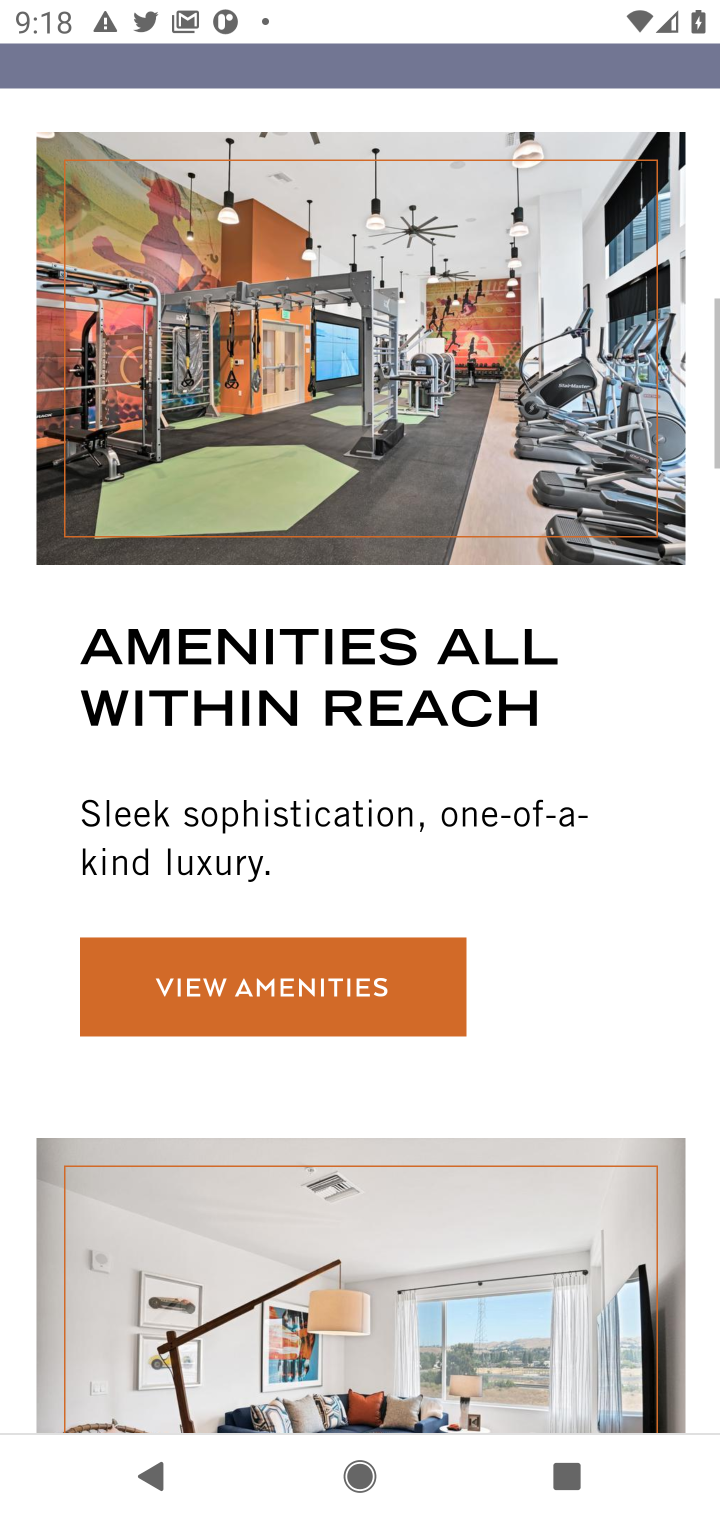
Step 31: drag from (435, 1003) to (499, 565)
Your task to perform on an android device: How much does a 2 bedroom apartment rent for in New York? Image 32: 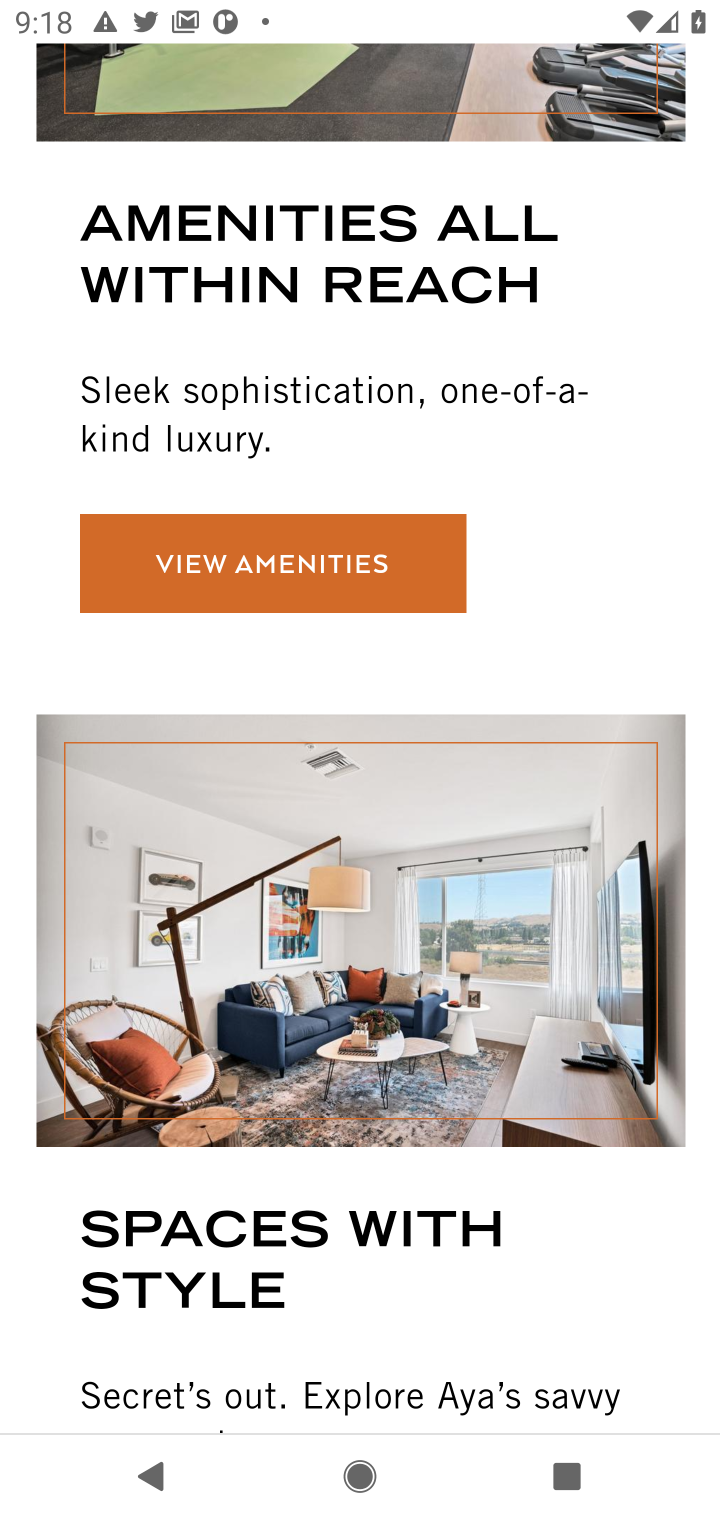
Step 32: drag from (615, 1184) to (615, 624)
Your task to perform on an android device: How much does a 2 bedroom apartment rent for in New York? Image 33: 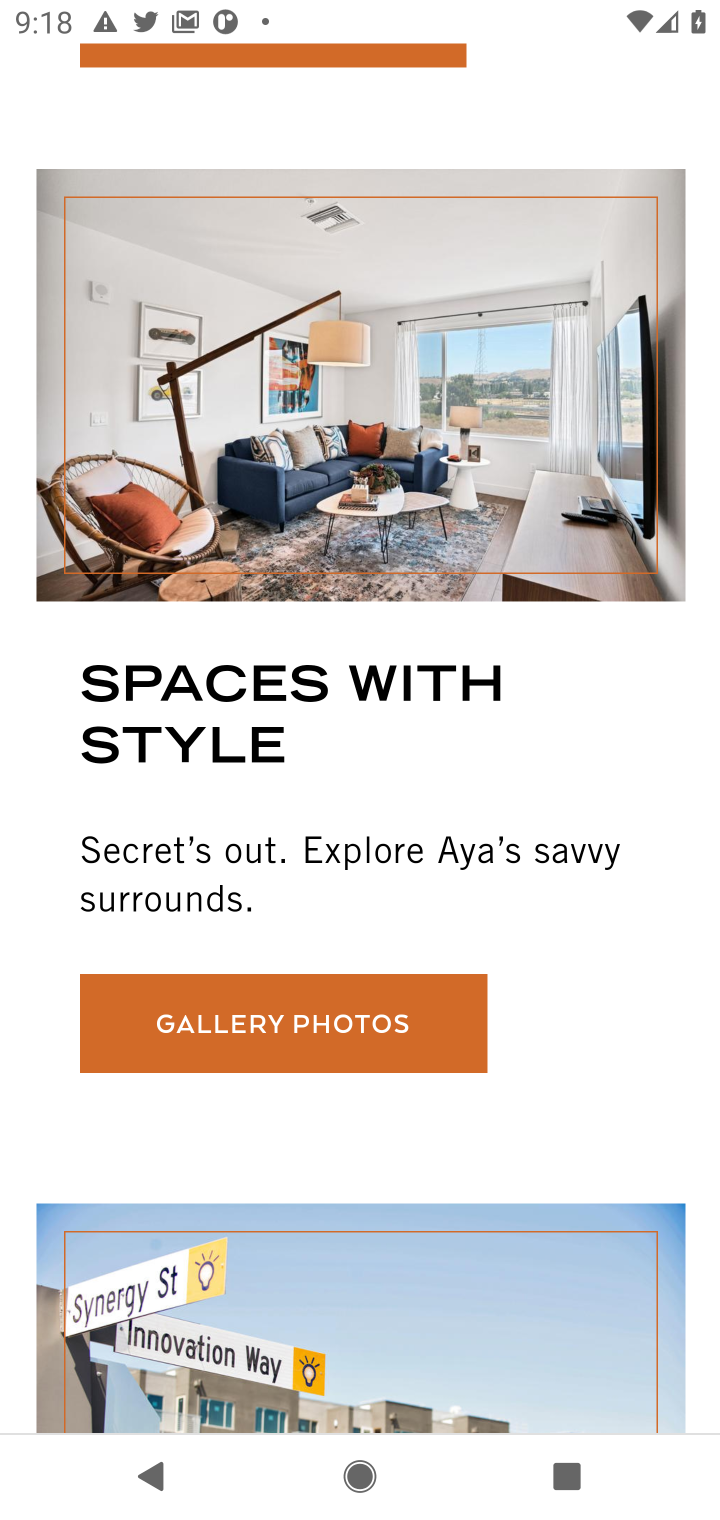
Step 33: drag from (542, 1169) to (499, 636)
Your task to perform on an android device: How much does a 2 bedroom apartment rent for in New York? Image 34: 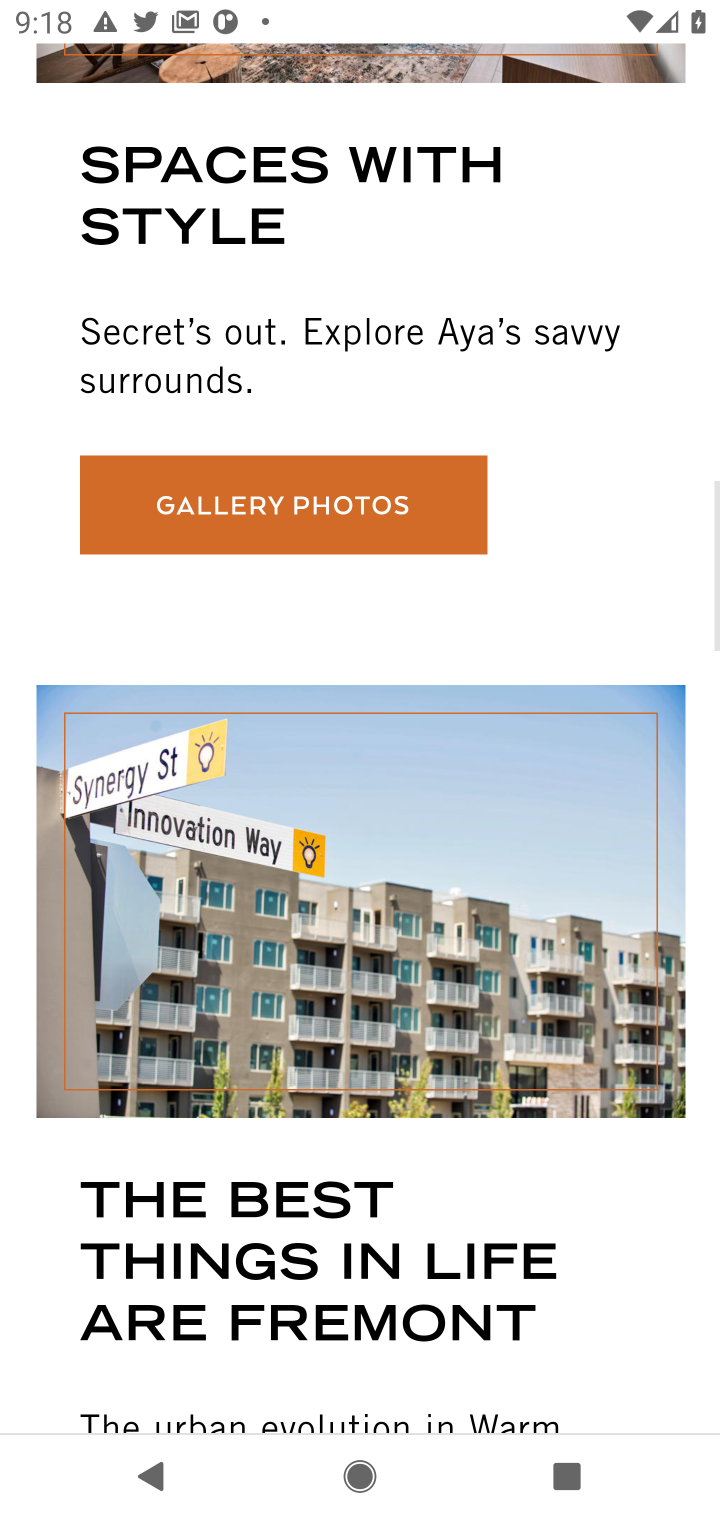
Step 34: drag from (537, 1132) to (602, 666)
Your task to perform on an android device: How much does a 2 bedroom apartment rent for in New York? Image 35: 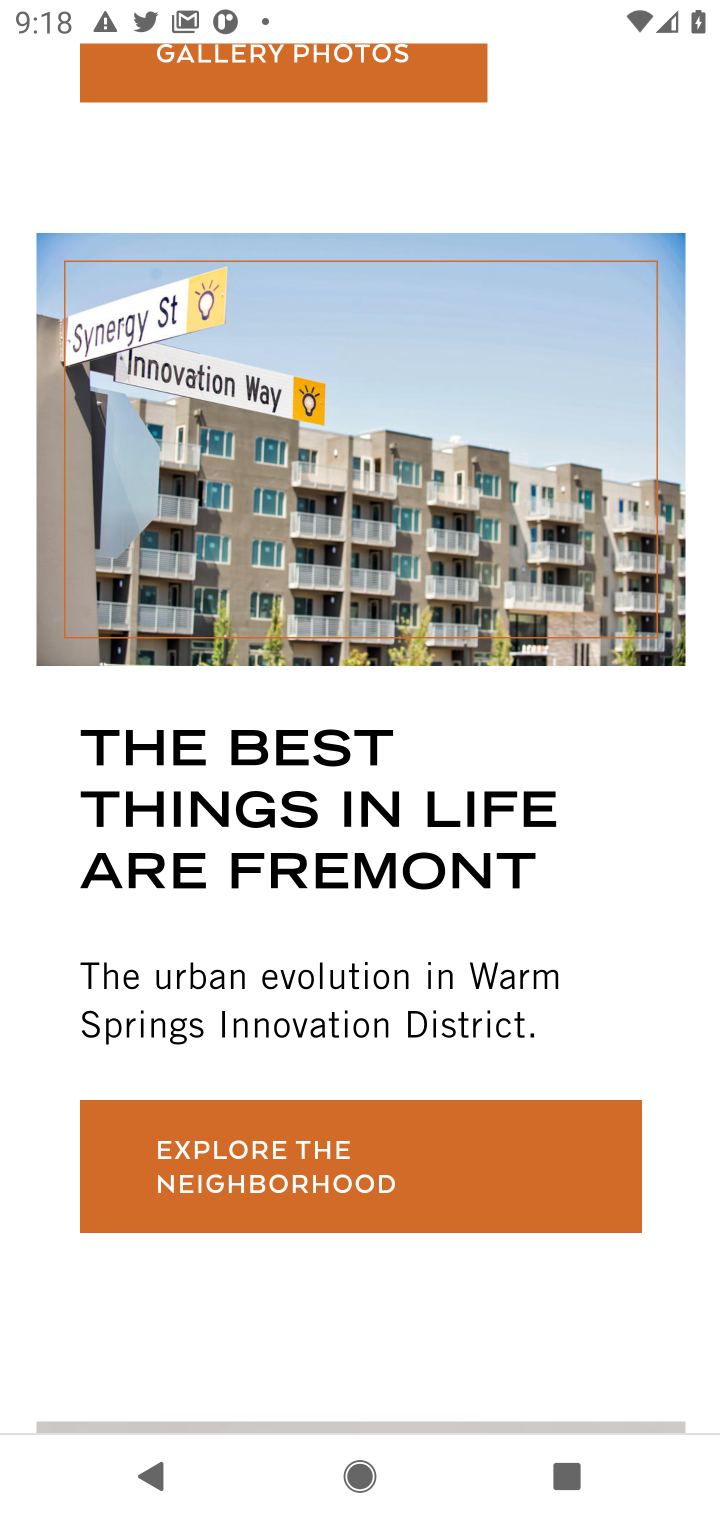
Step 35: drag from (570, 895) to (555, 1289)
Your task to perform on an android device: How much does a 2 bedroom apartment rent for in New York? Image 36: 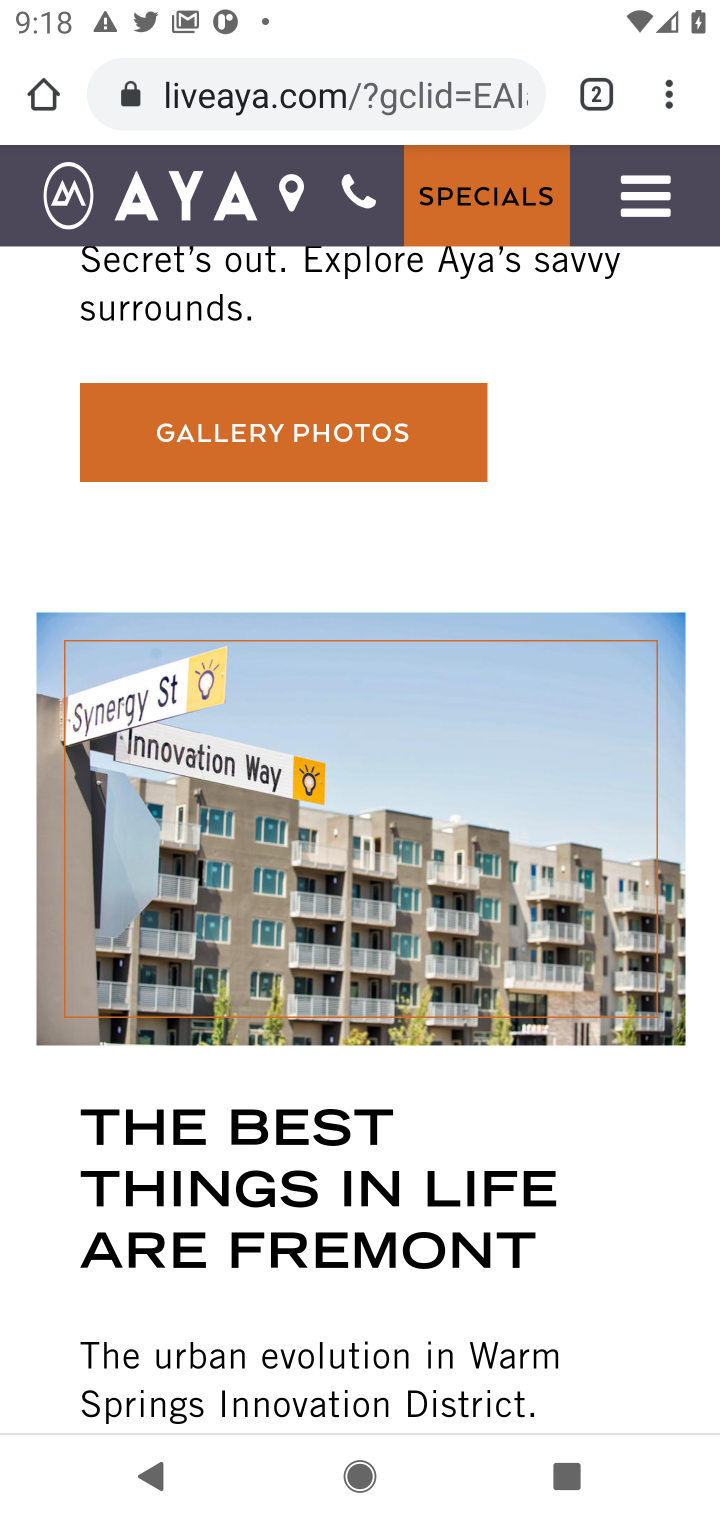
Step 36: drag from (646, 753) to (703, 334)
Your task to perform on an android device: How much does a 2 bedroom apartment rent for in New York? Image 37: 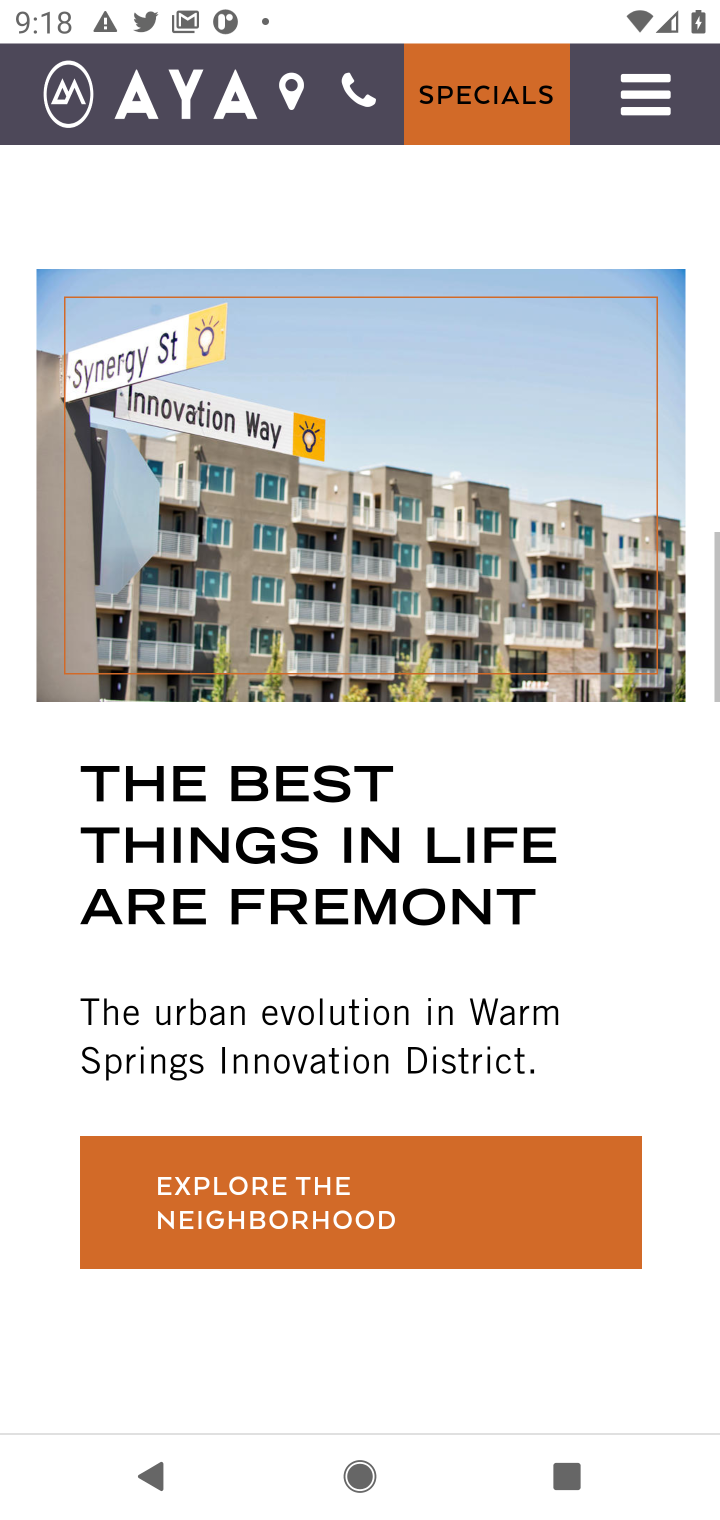
Step 37: click (624, 189)
Your task to perform on an android device: How much does a 2 bedroom apartment rent for in New York? Image 38: 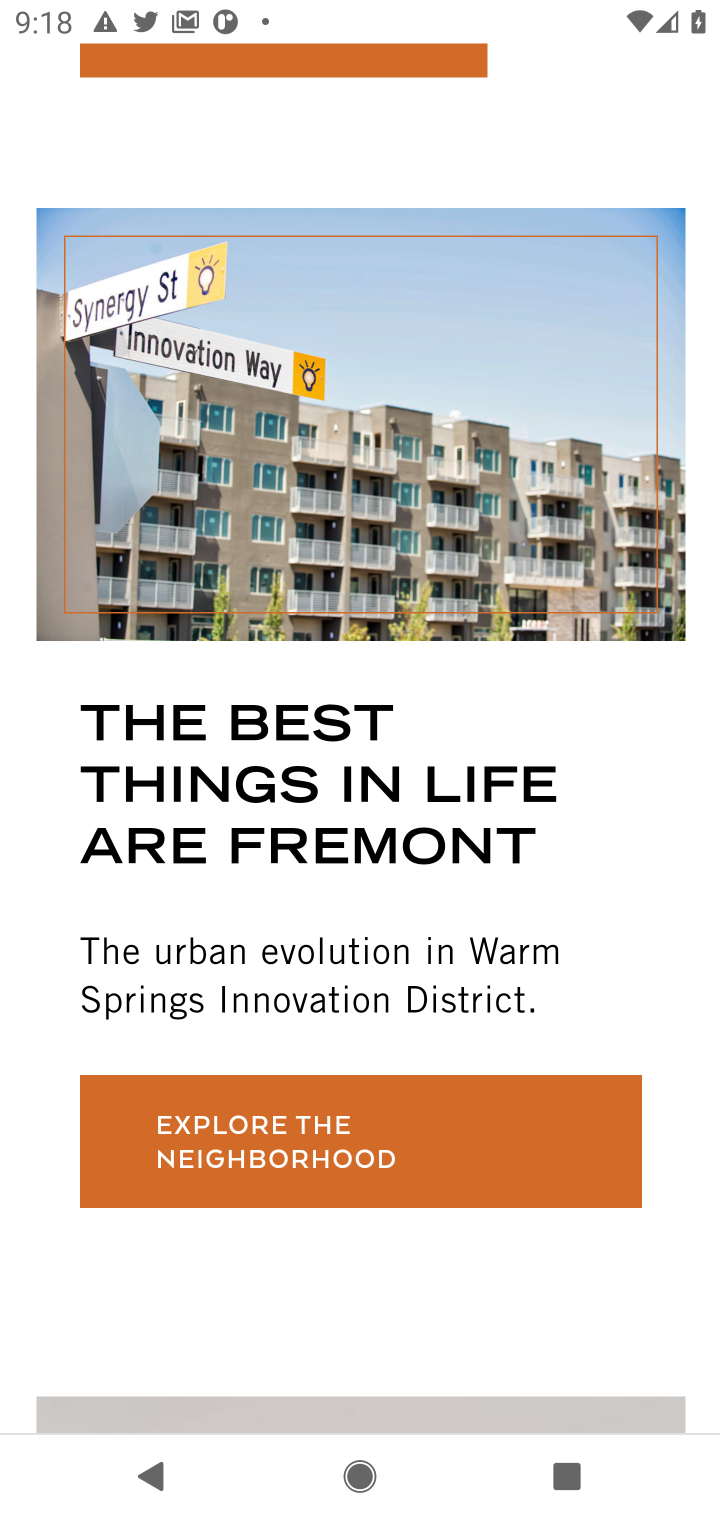
Step 38: task complete